Your task to perform on an android device: make emails show in primary in the gmail app Image 0: 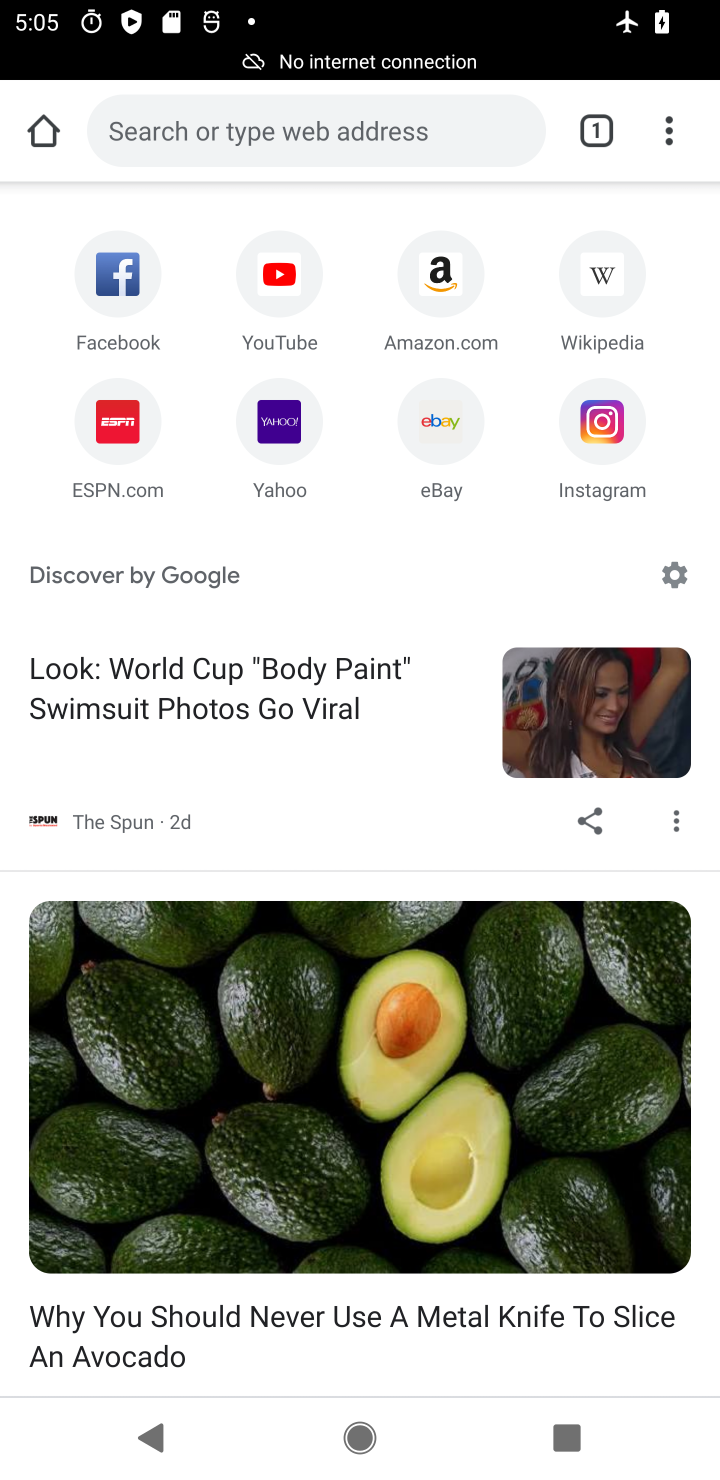
Step 0: press back button
Your task to perform on an android device: make emails show in primary in the gmail app Image 1: 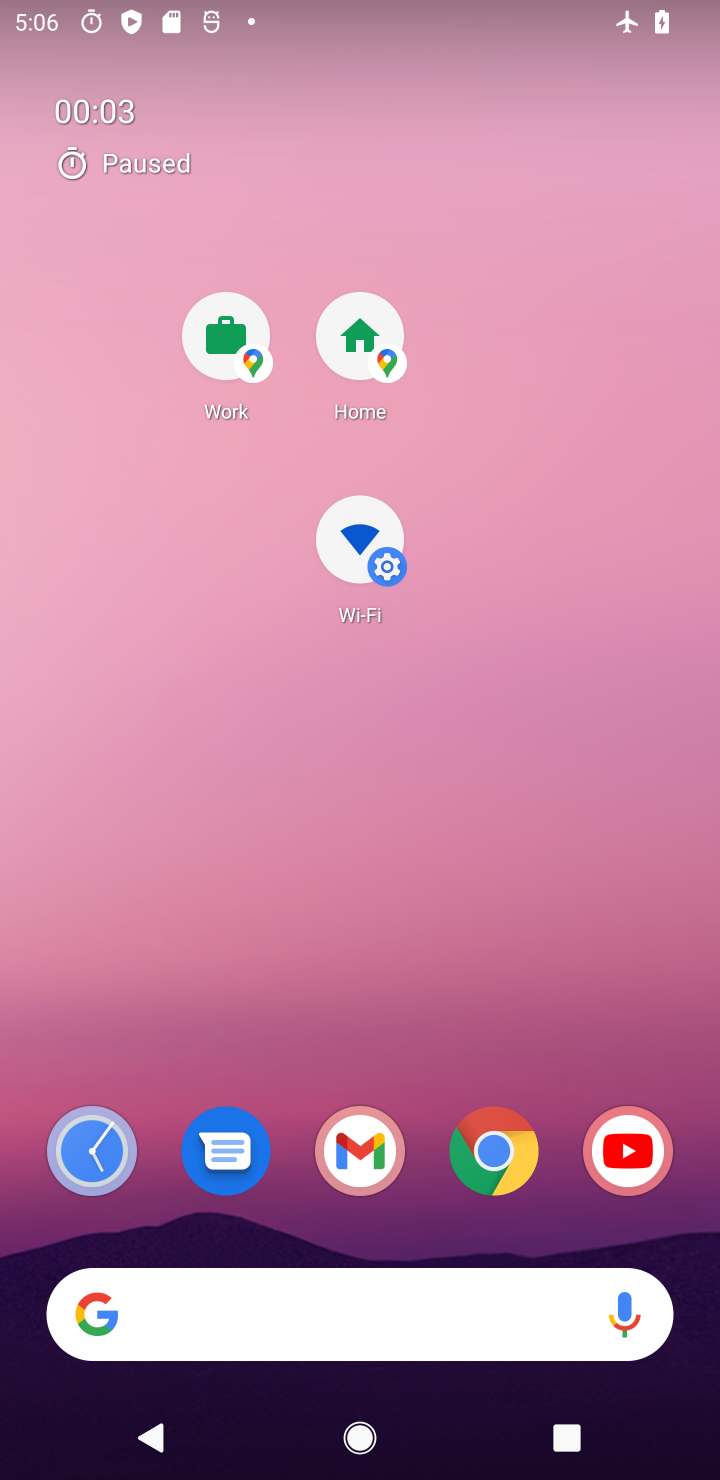
Step 1: press back button
Your task to perform on an android device: make emails show in primary in the gmail app Image 2: 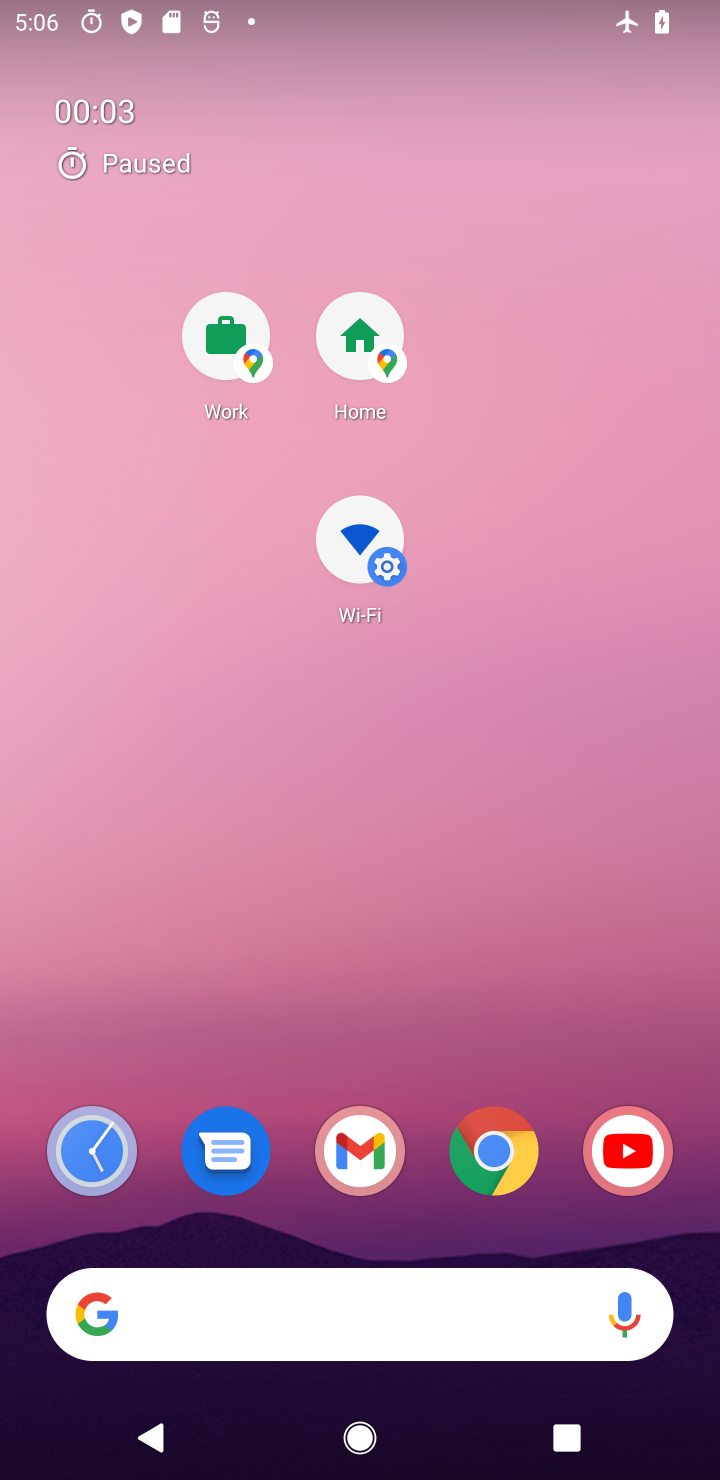
Step 2: press home button
Your task to perform on an android device: make emails show in primary in the gmail app Image 3: 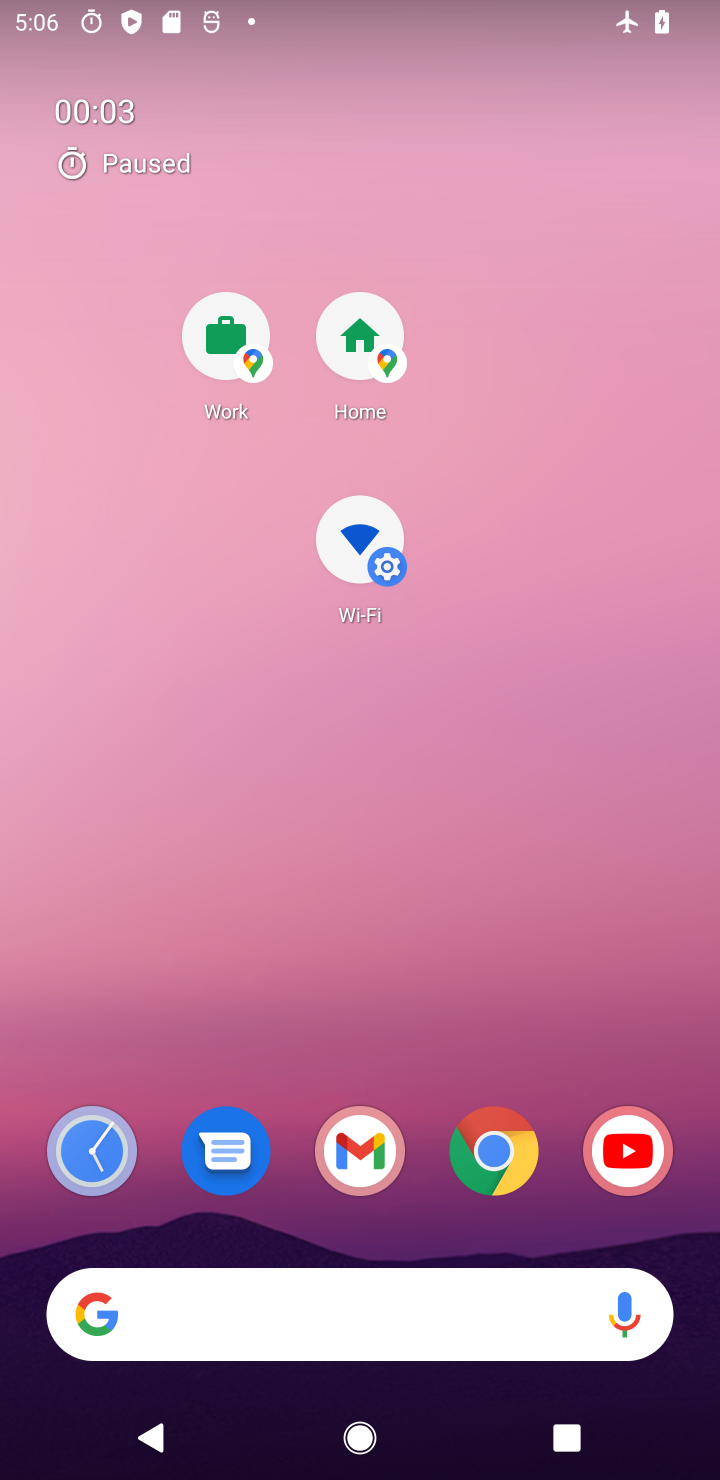
Step 3: press back button
Your task to perform on an android device: make emails show in primary in the gmail app Image 4: 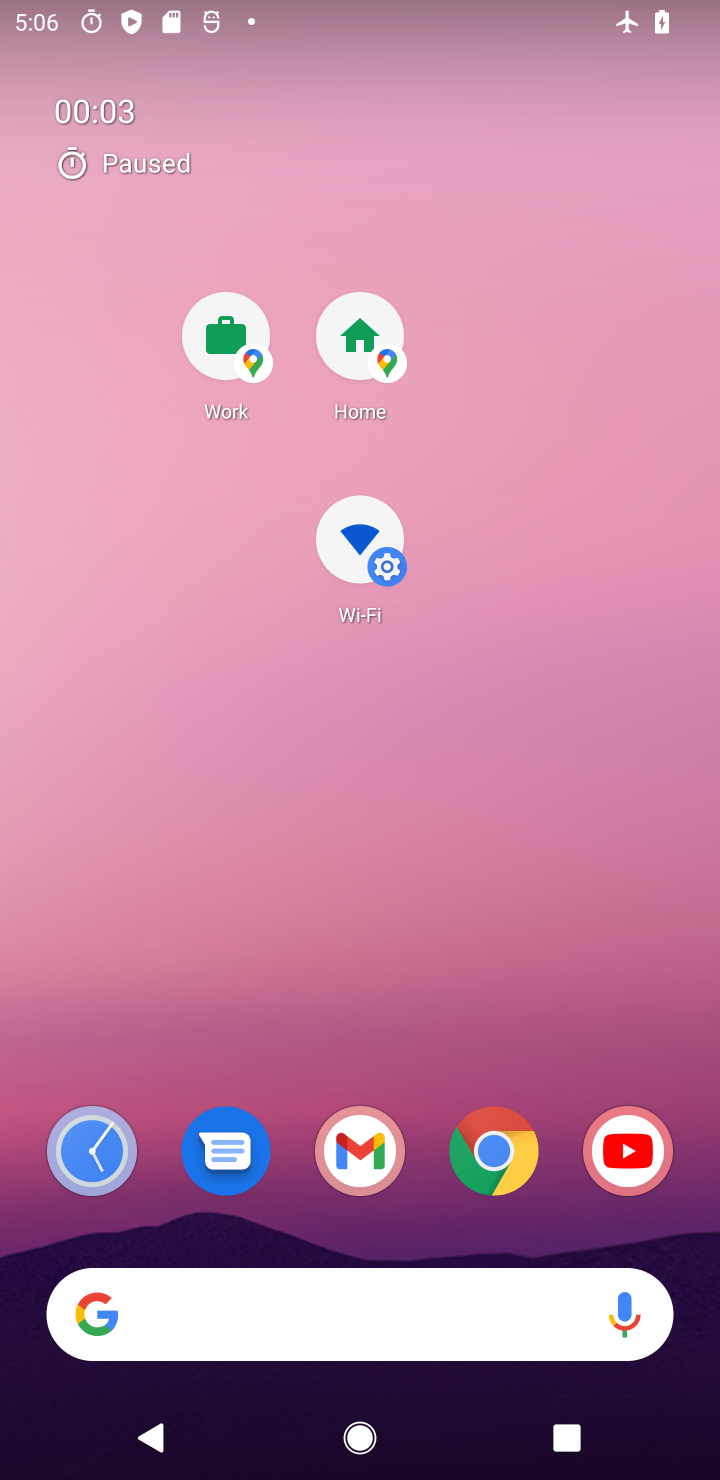
Step 4: drag from (447, 1398) to (283, 584)
Your task to perform on an android device: make emails show in primary in the gmail app Image 5: 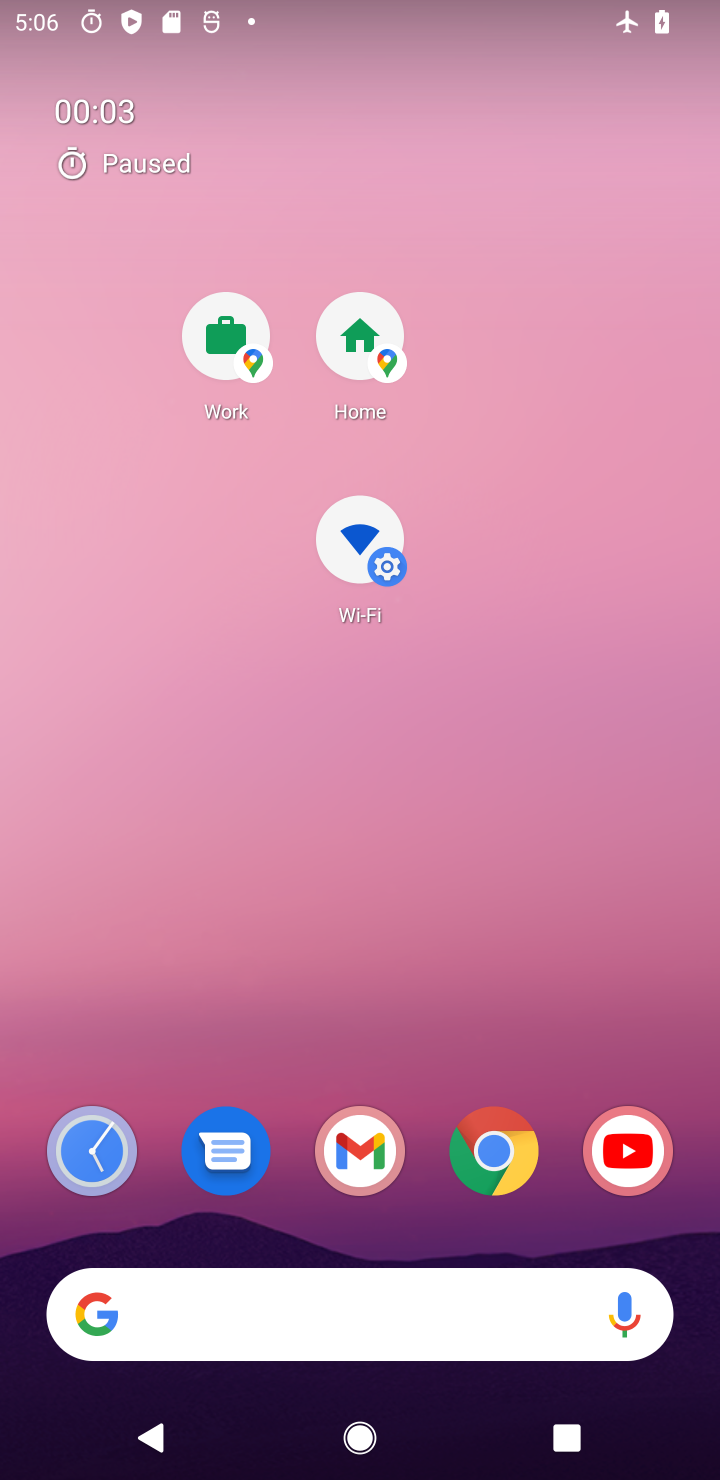
Step 5: drag from (499, 1086) to (412, 224)
Your task to perform on an android device: make emails show in primary in the gmail app Image 6: 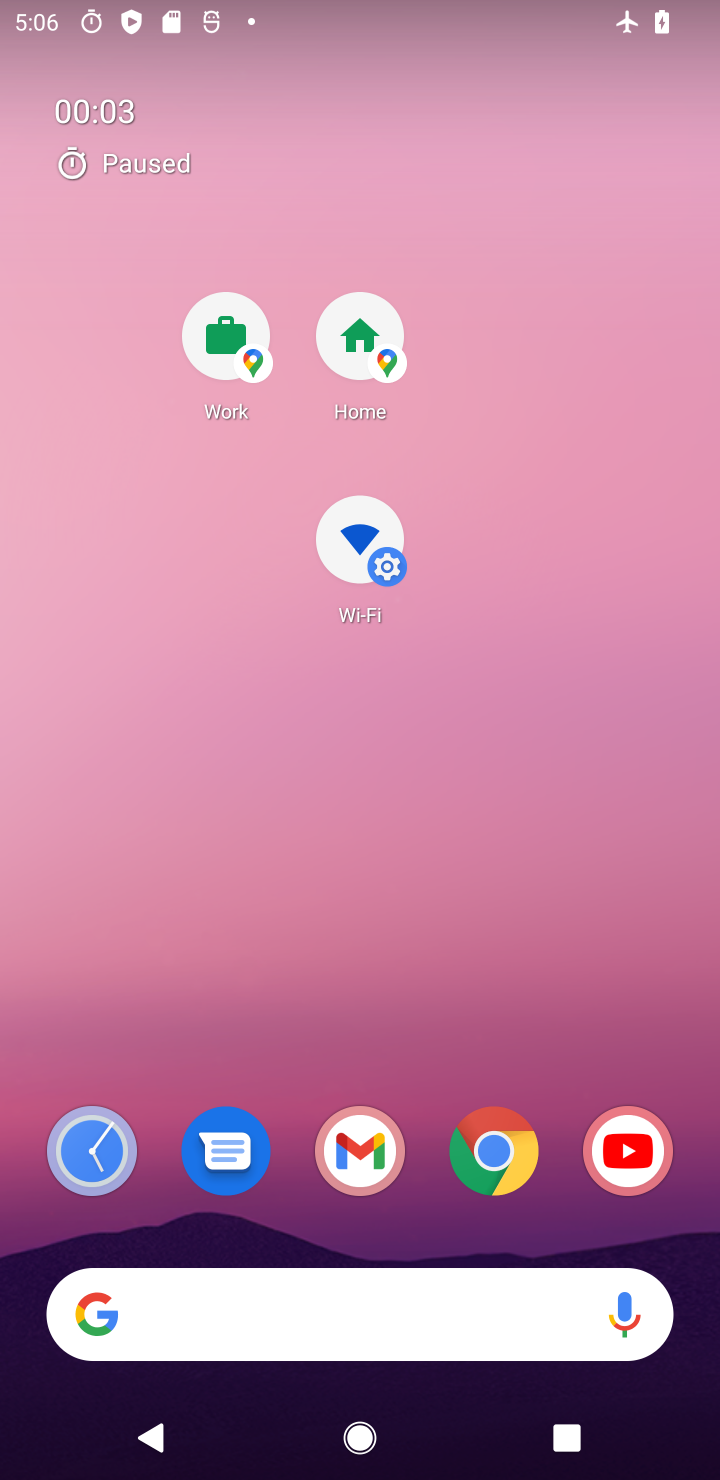
Step 6: drag from (450, 668) to (426, 472)
Your task to perform on an android device: make emails show in primary in the gmail app Image 7: 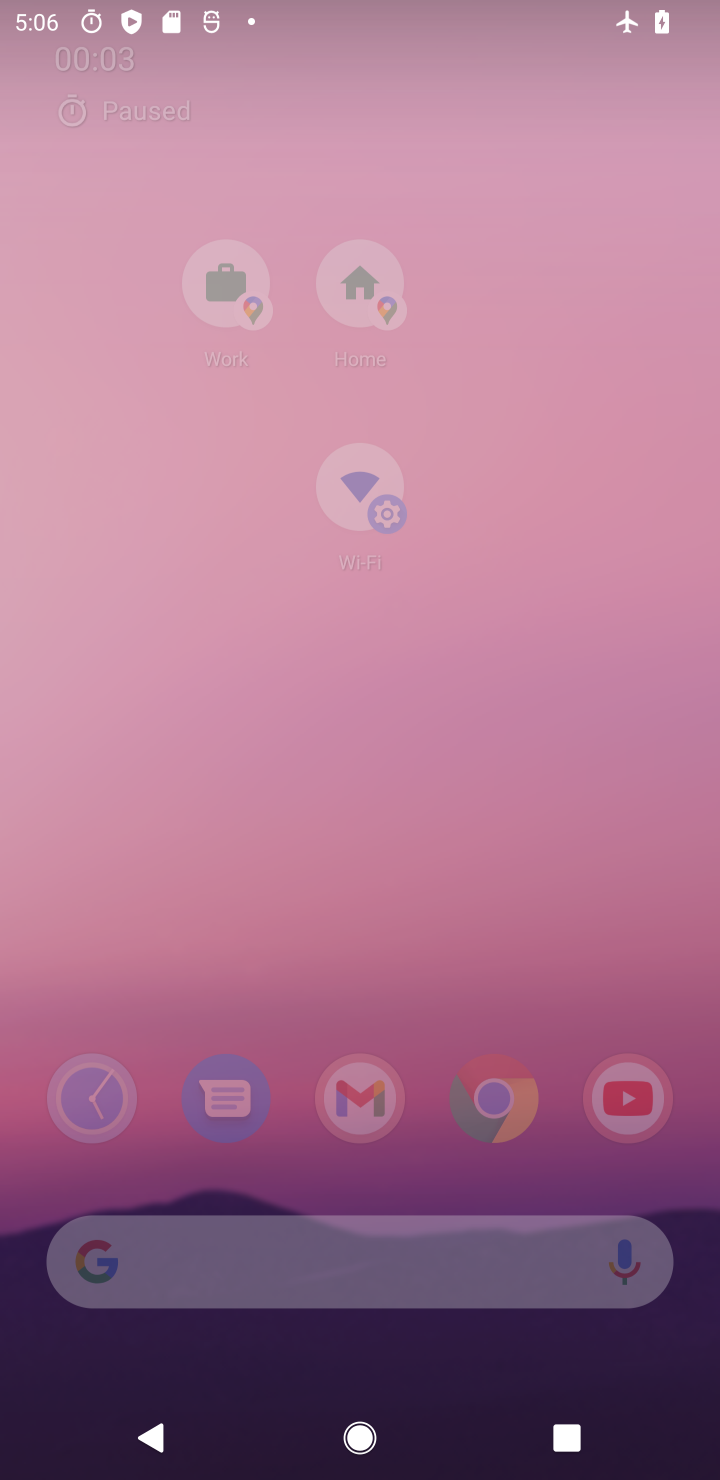
Step 7: click (341, 367)
Your task to perform on an android device: make emails show in primary in the gmail app Image 8: 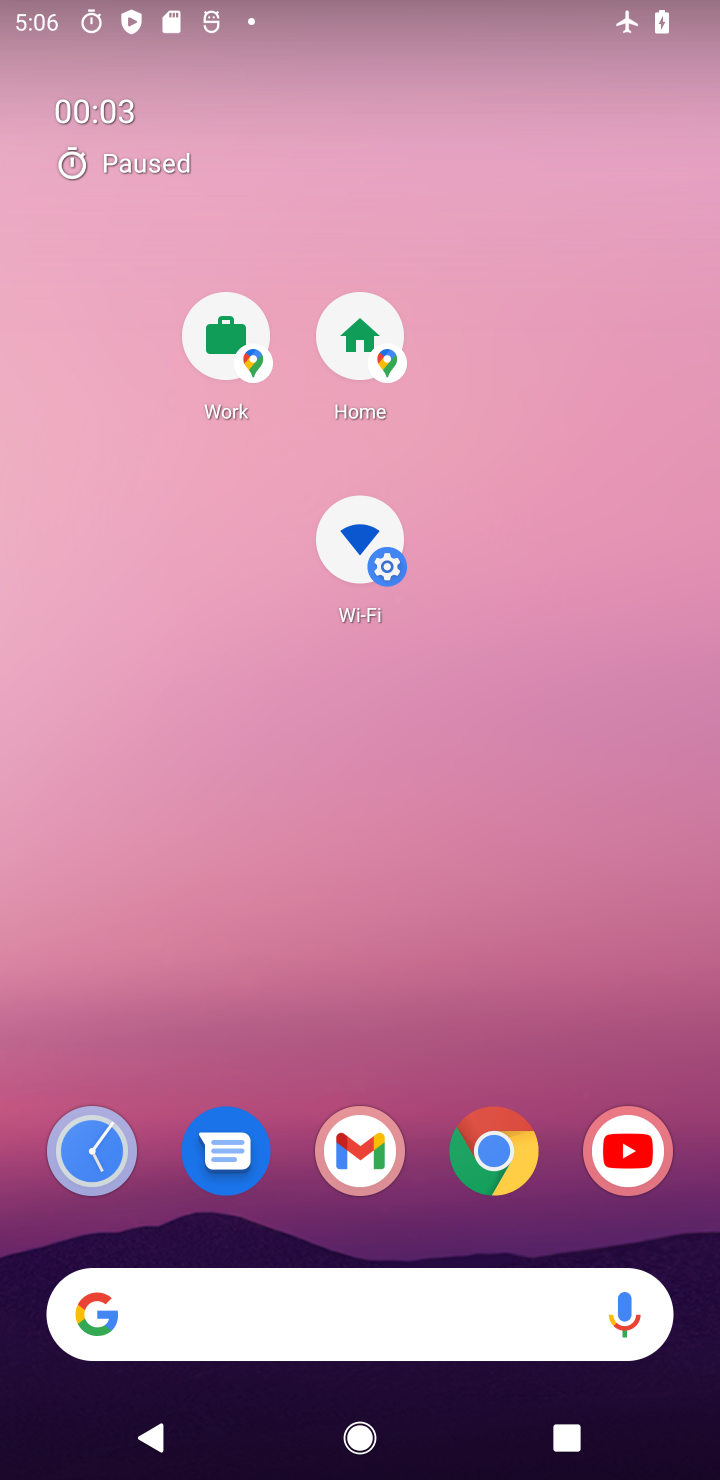
Step 8: drag from (446, 280) to (419, 14)
Your task to perform on an android device: make emails show in primary in the gmail app Image 9: 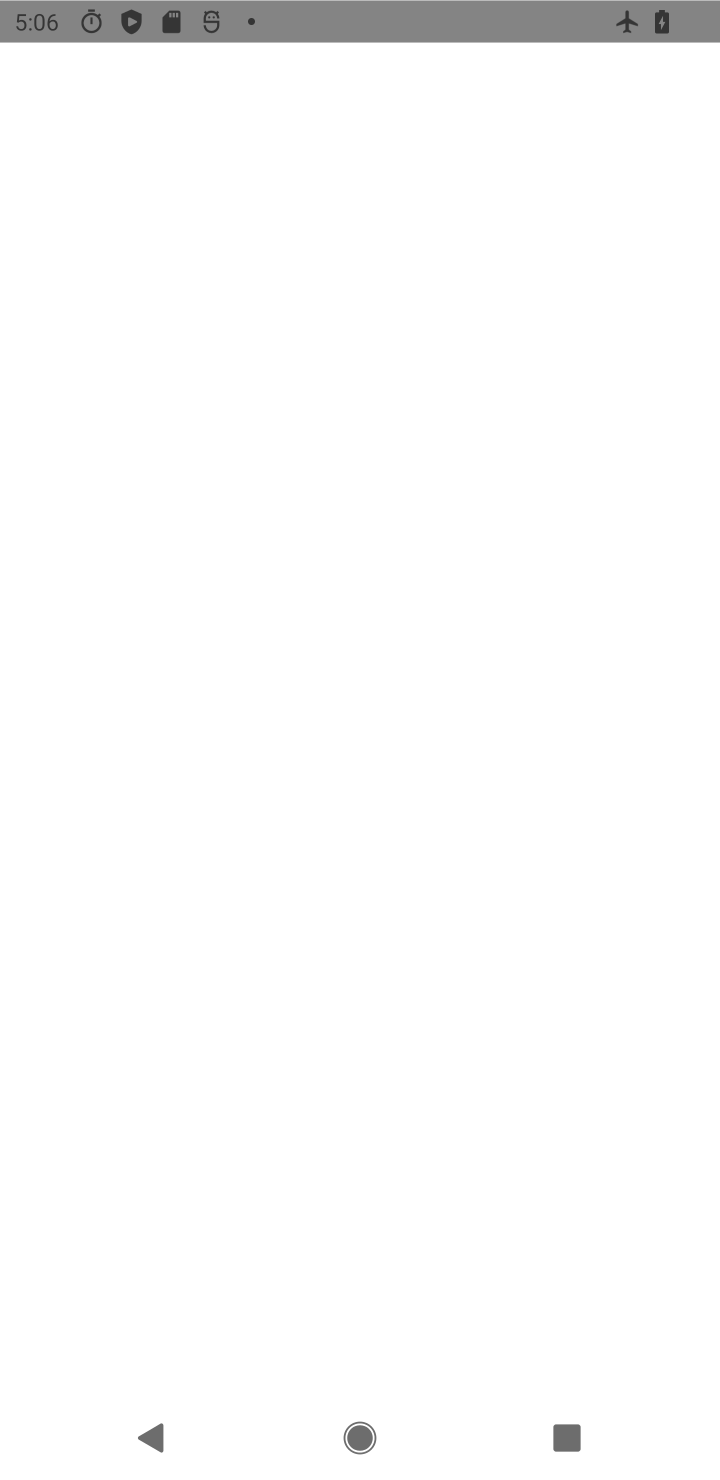
Step 9: drag from (474, 991) to (461, 224)
Your task to perform on an android device: make emails show in primary in the gmail app Image 10: 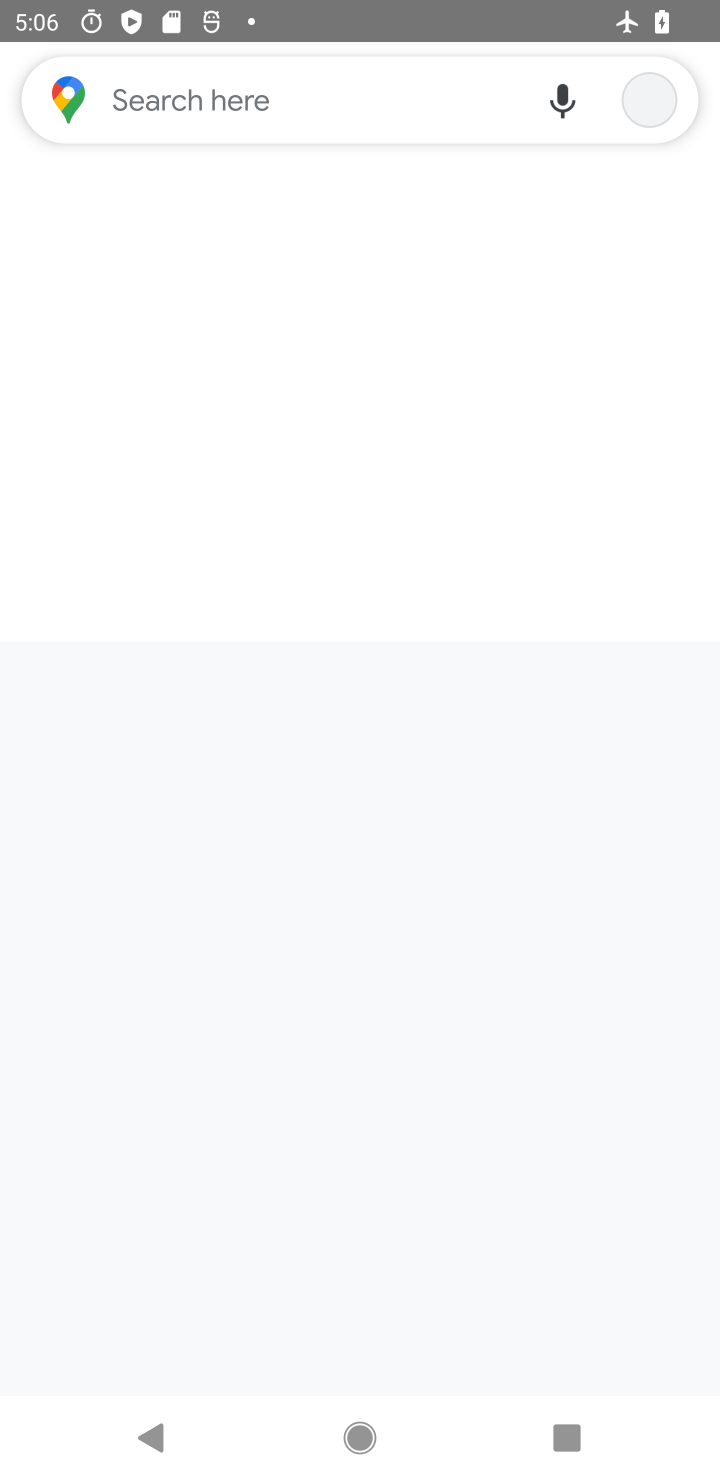
Step 10: press back button
Your task to perform on an android device: make emails show in primary in the gmail app Image 11: 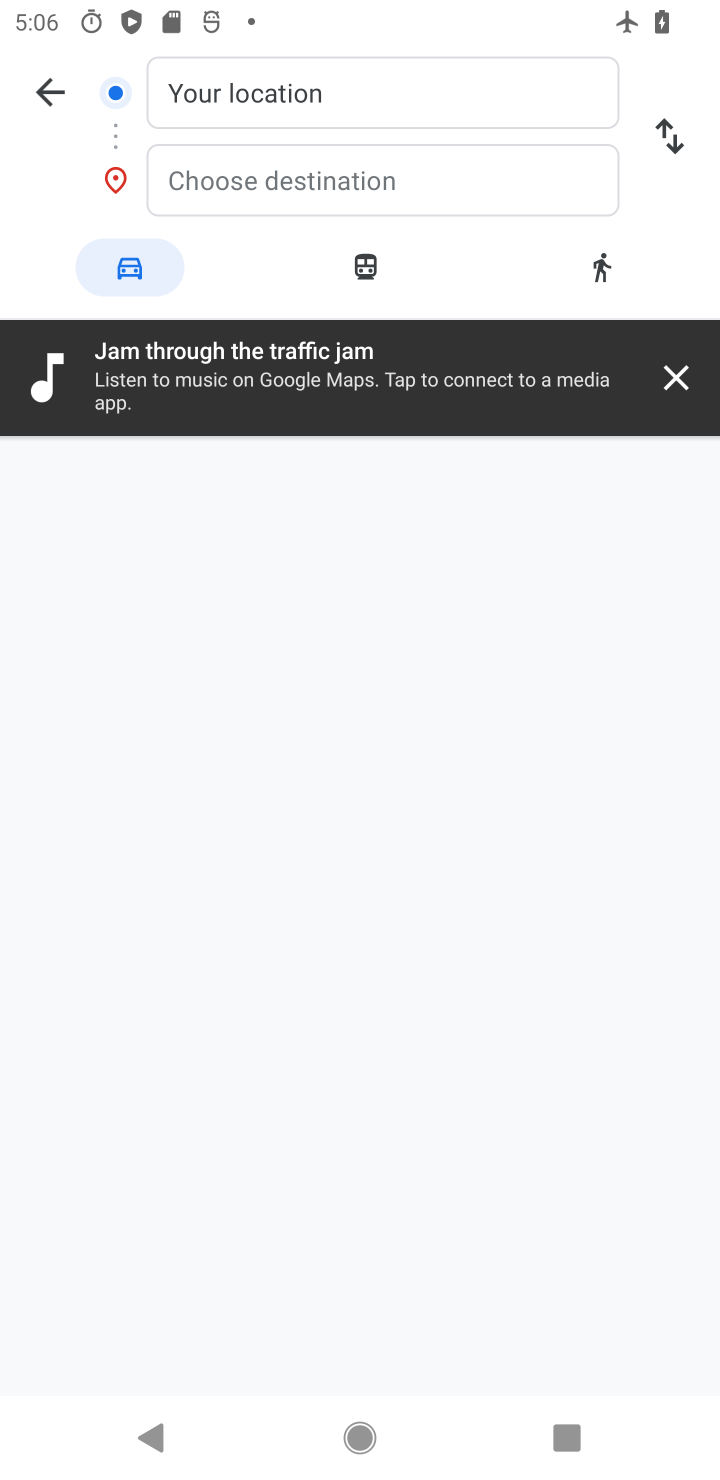
Step 11: click (44, 92)
Your task to perform on an android device: make emails show in primary in the gmail app Image 12: 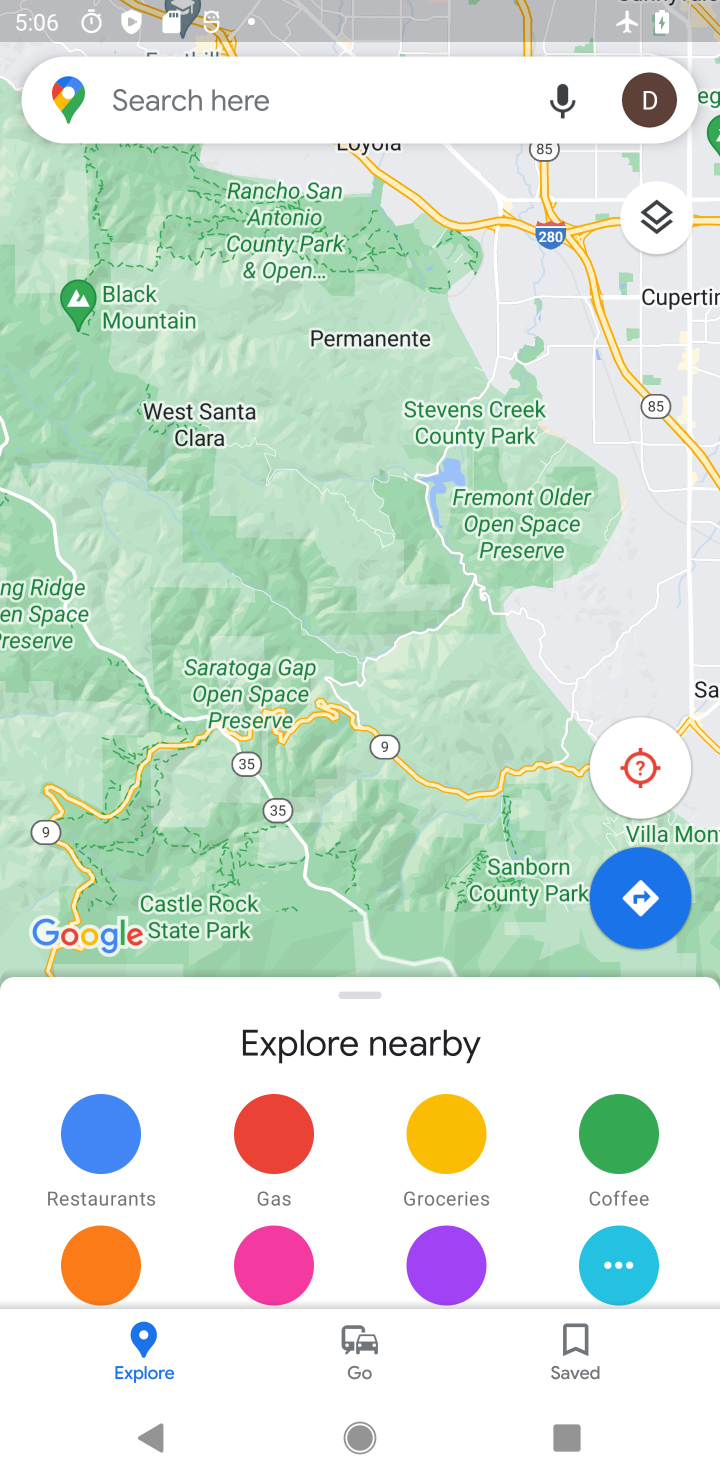
Step 12: press home button
Your task to perform on an android device: make emails show in primary in the gmail app Image 13: 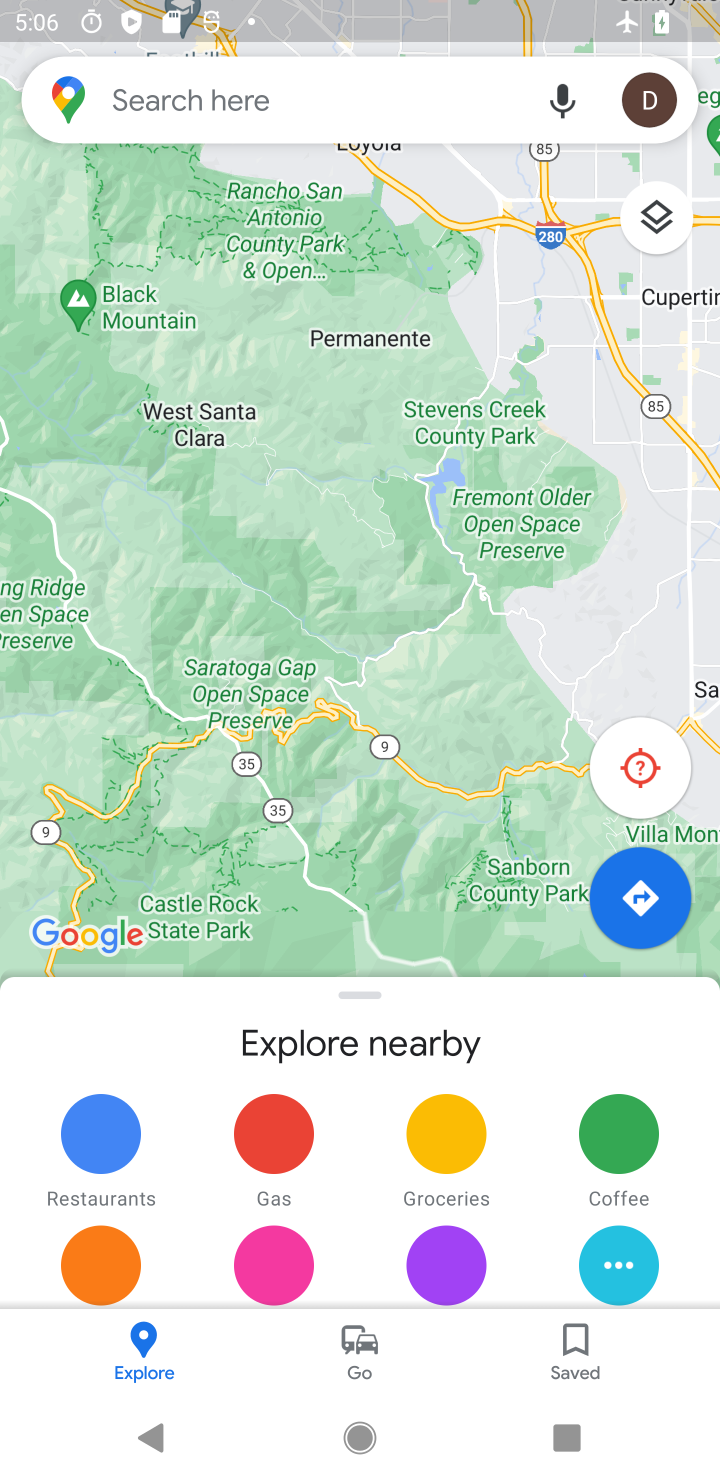
Step 13: press back button
Your task to perform on an android device: make emails show in primary in the gmail app Image 14: 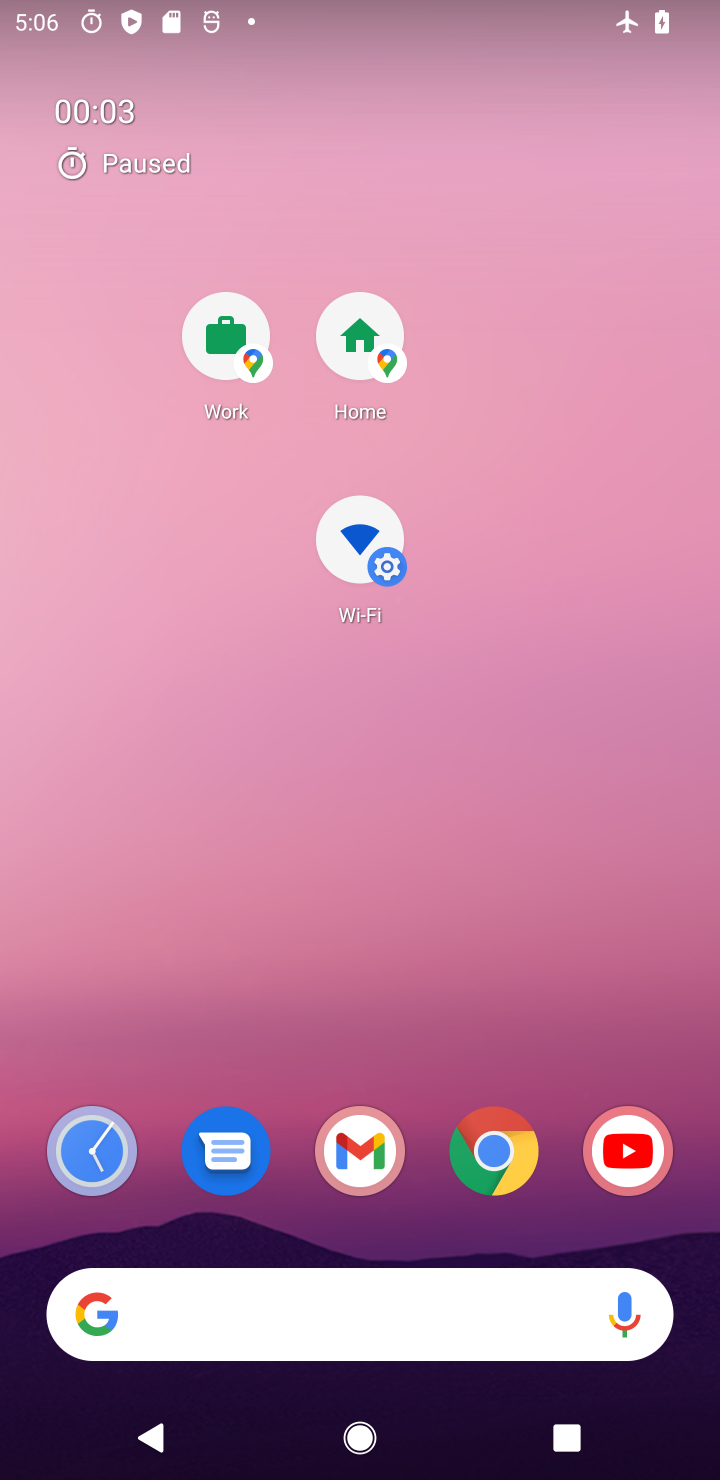
Step 14: drag from (389, 973) to (334, 253)
Your task to perform on an android device: make emails show in primary in the gmail app Image 15: 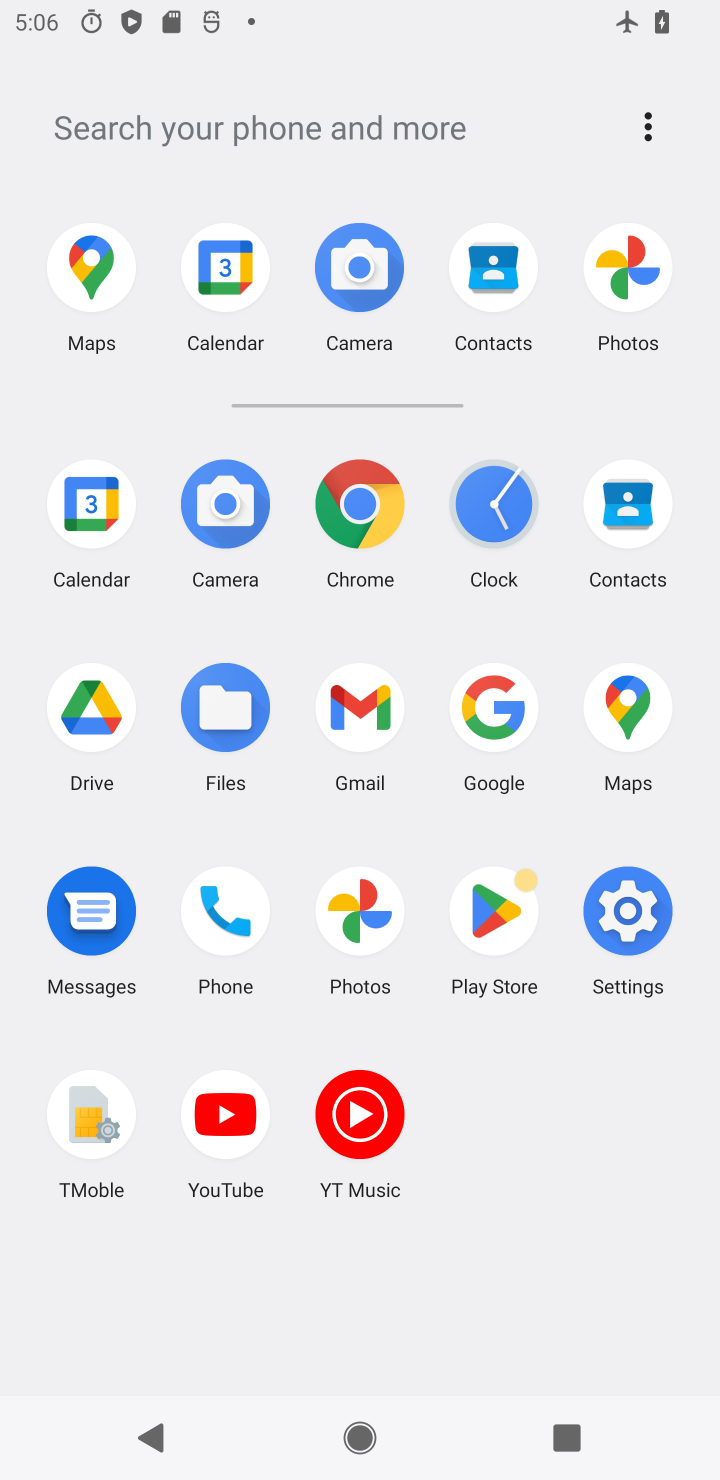
Step 15: click (373, 702)
Your task to perform on an android device: make emails show in primary in the gmail app Image 16: 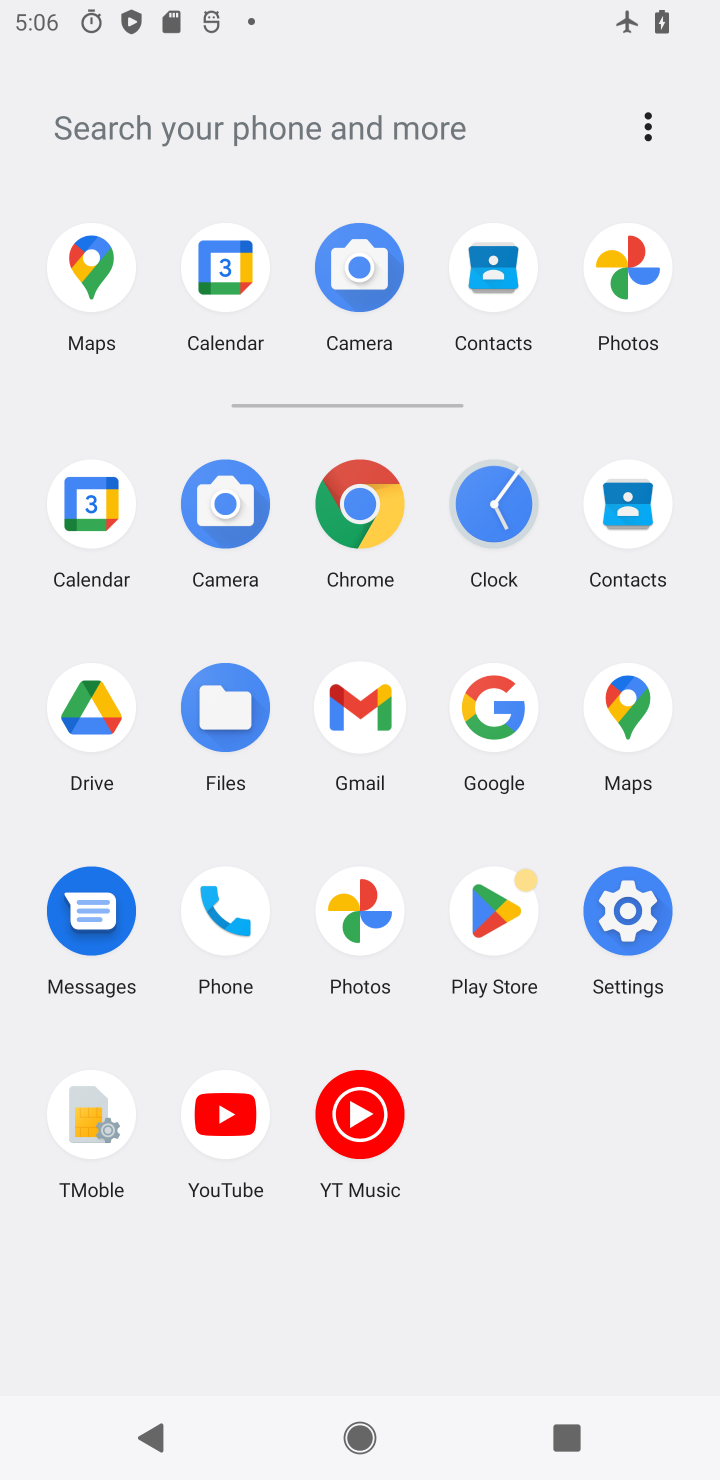
Step 16: click (375, 703)
Your task to perform on an android device: make emails show in primary in the gmail app Image 17: 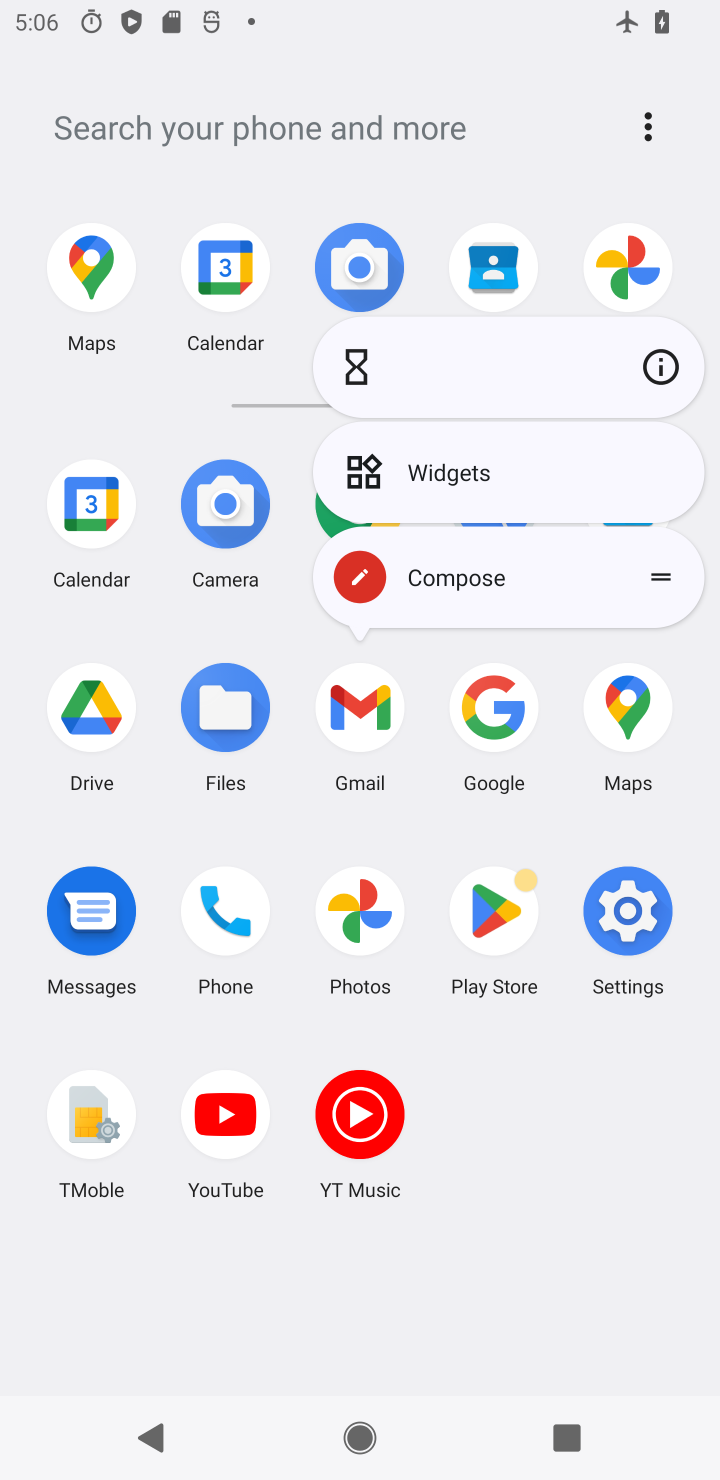
Step 17: click (444, 554)
Your task to perform on an android device: make emails show in primary in the gmail app Image 18: 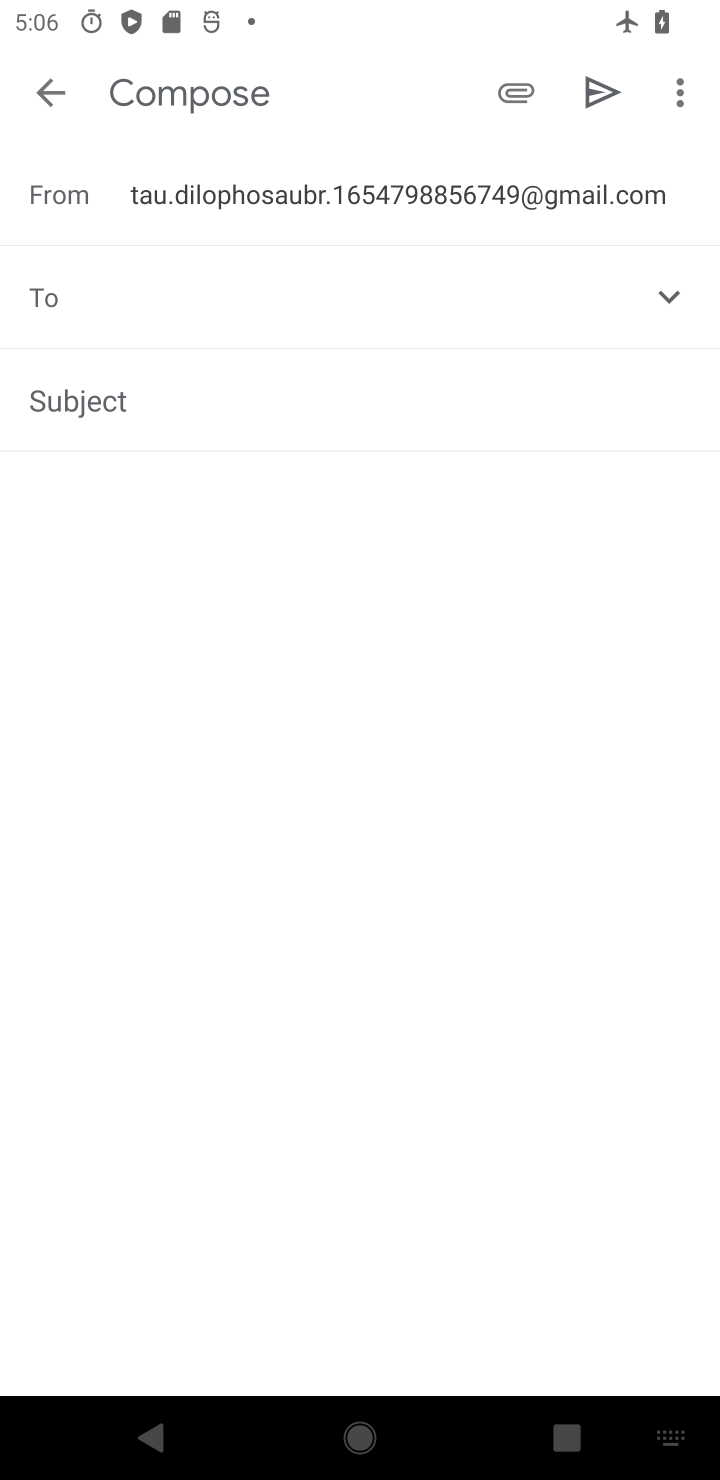
Step 18: click (38, 81)
Your task to perform on an android device: make emails show in primary in the gmail app Image 19: 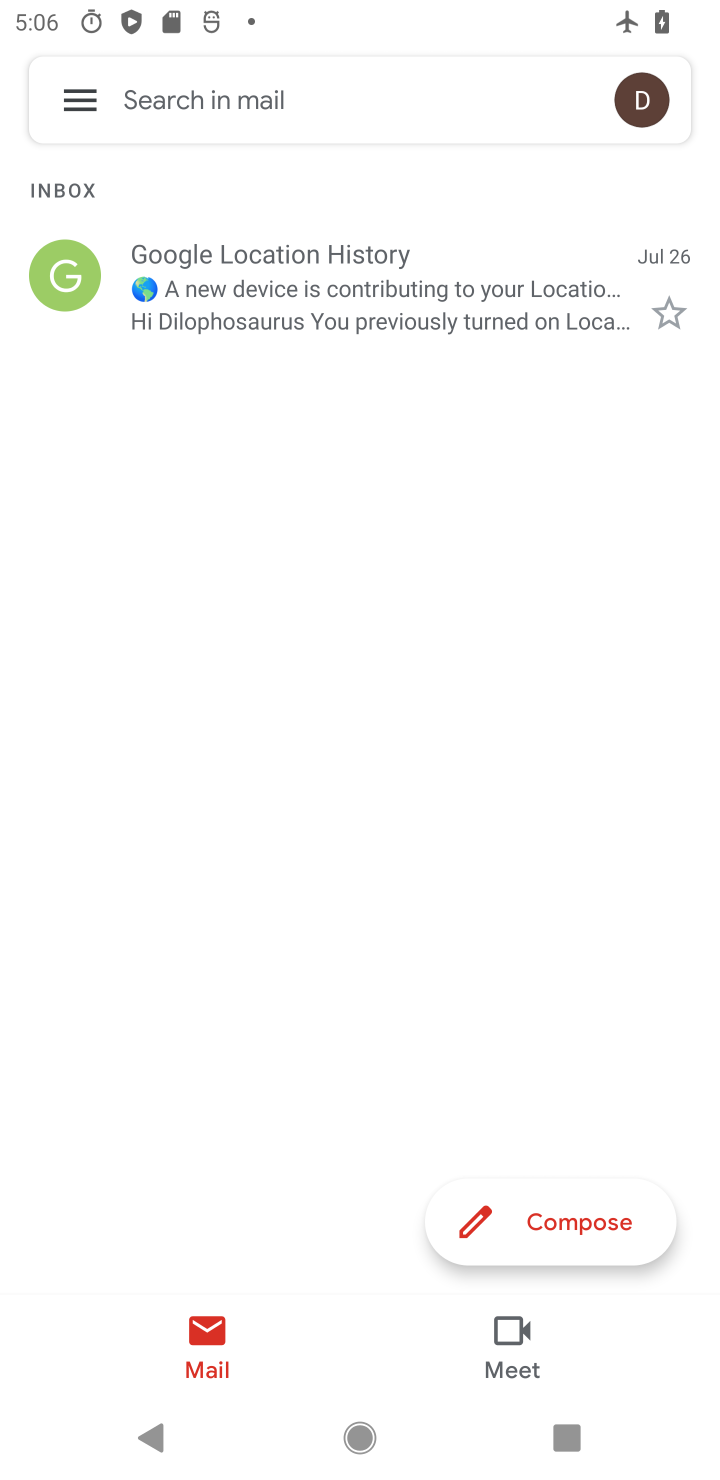
Step 19: click (69, 94)
Your task to perform on an android device: make emails show in primary in the gmail app Image 20: 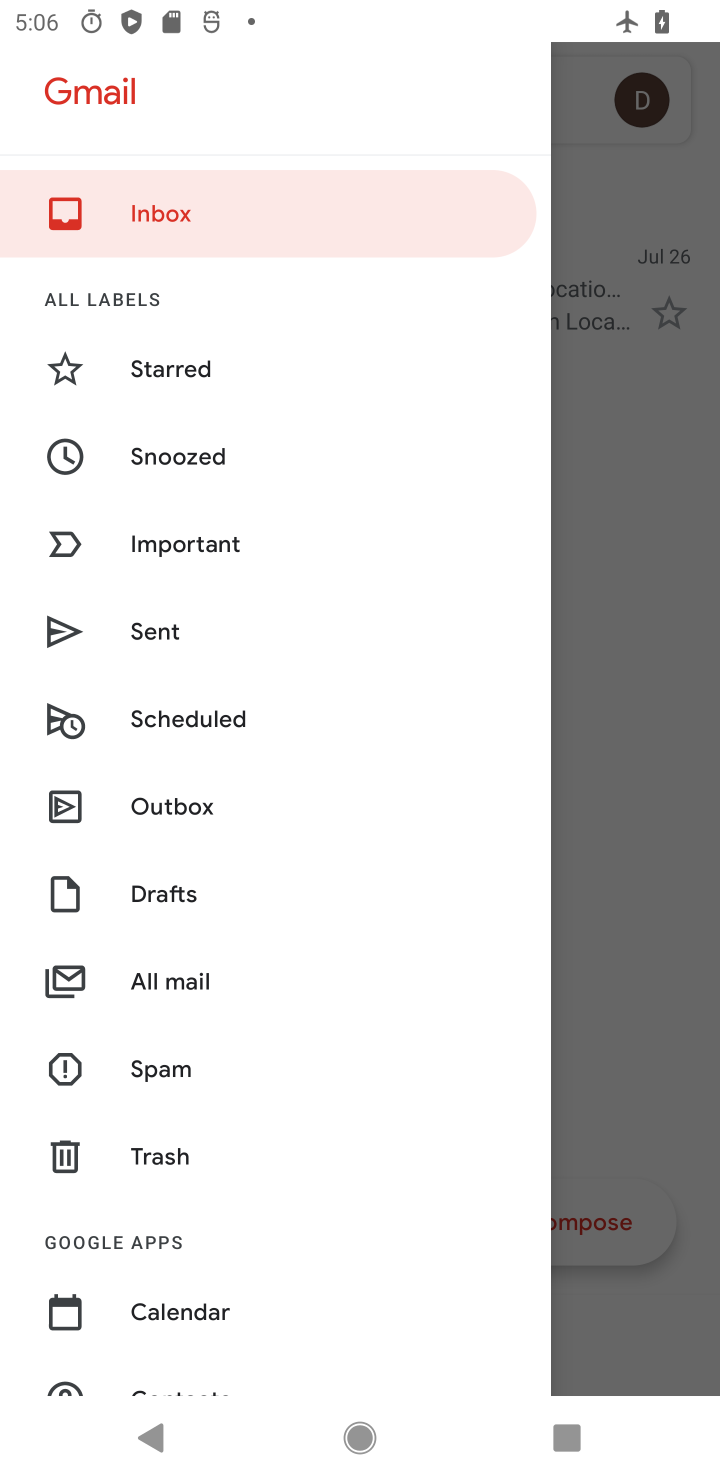
Step 20: drag from (240, 1127) to (155, 539)
Your task to perform on an android device: make emails show in primary in the gmail app Image 21: 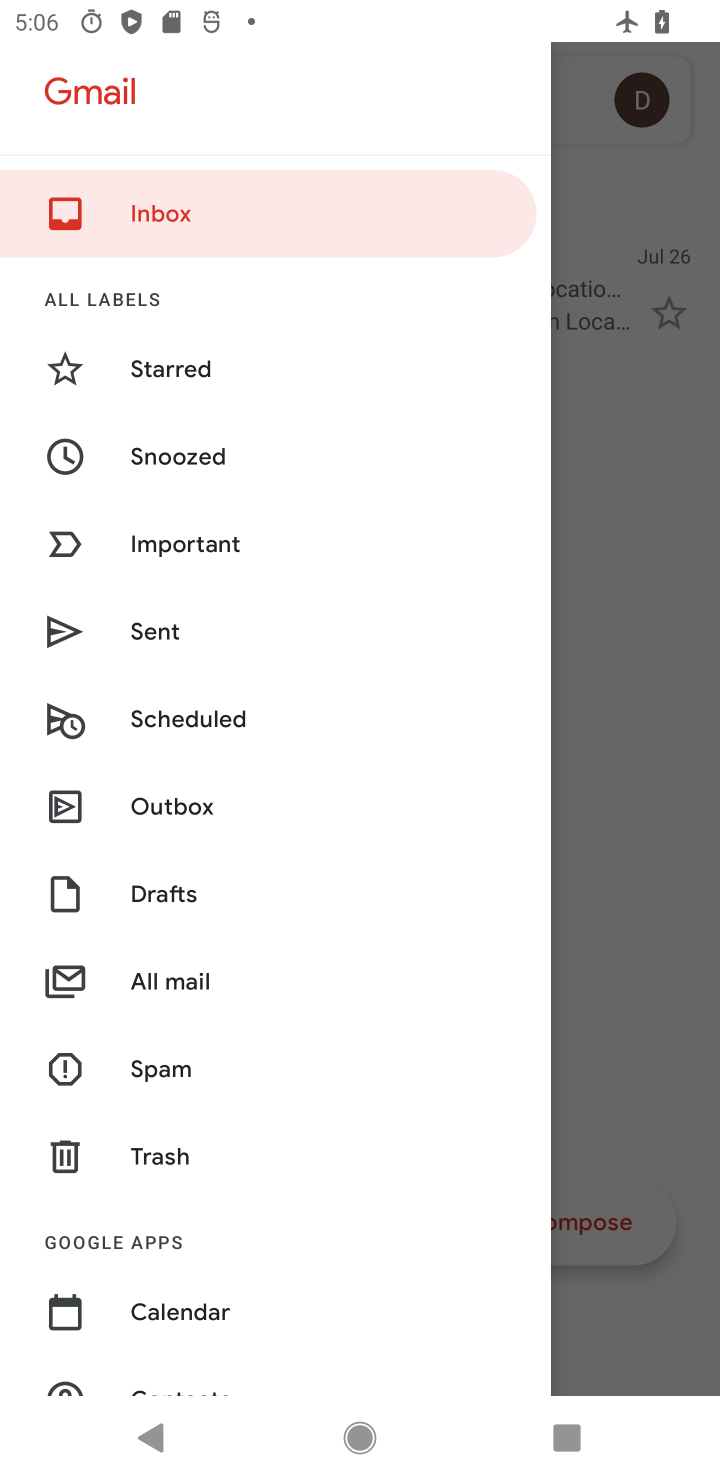
Step 21: drag from (238, 952) to (360, 475)
Your task to perform on an android device: make emails show in primary in the gmail app Image 22: 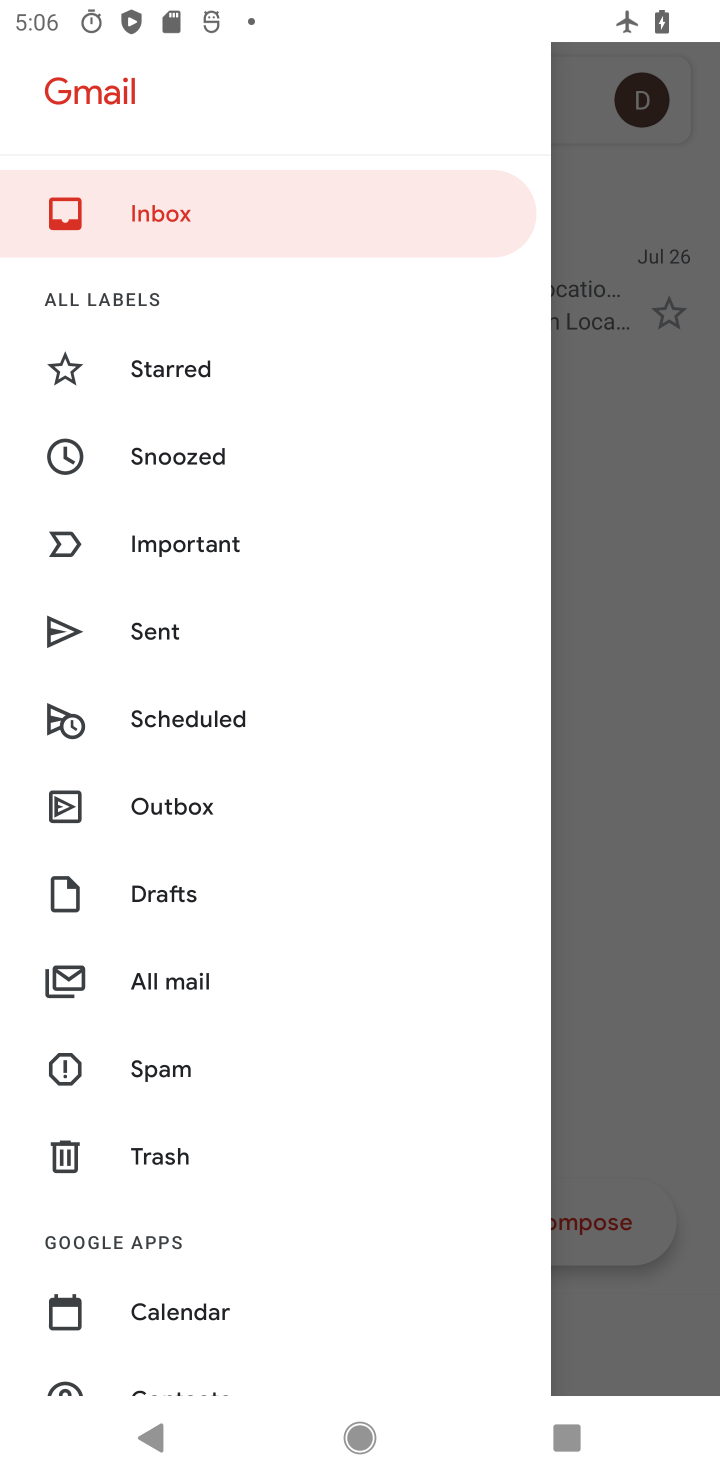
Step 22: drag from (238, 1150) to (178, 338)
Your task to perform on an android device: make emails show in primary in the gmail app Image 23: 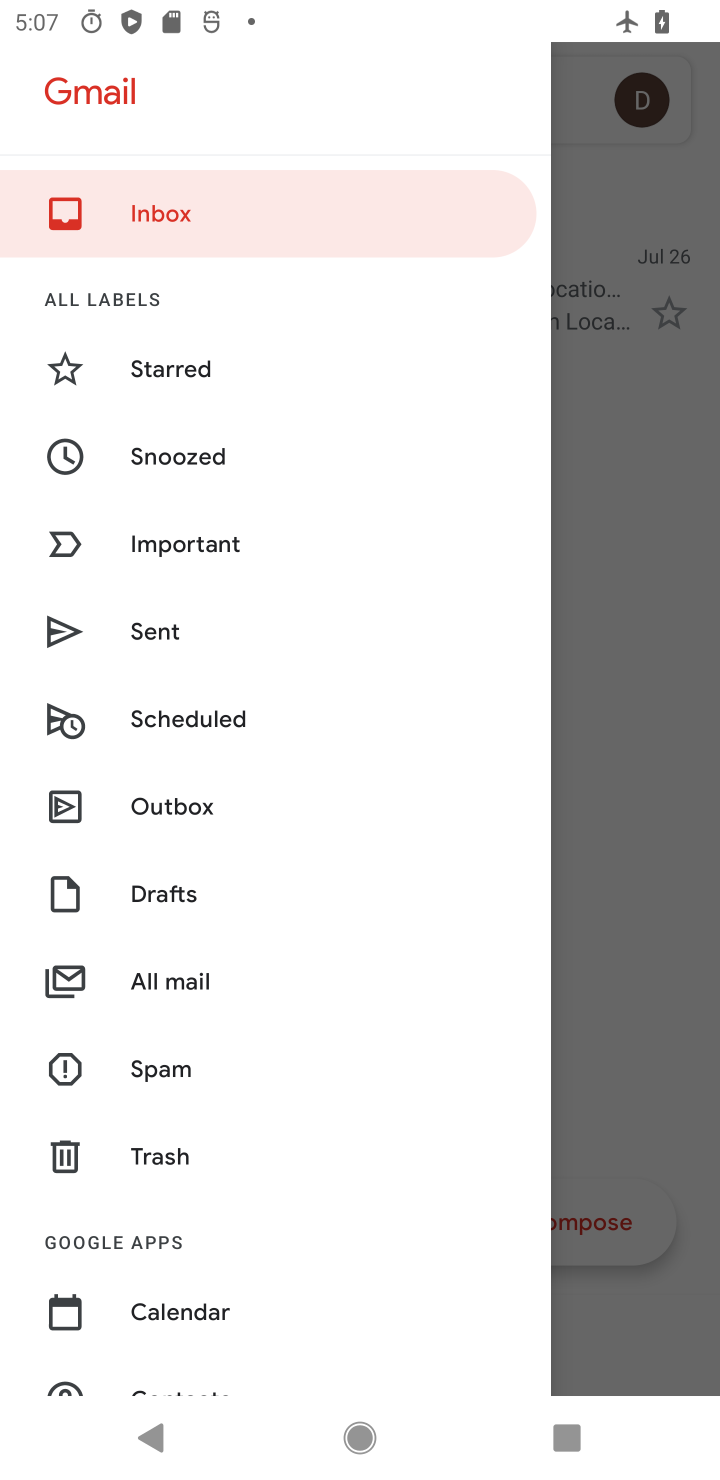
Step 23: drag from (187, 783) to (98, 325)
Your task to perform on an android device: make emails show in primary in the gmail app Image 24: 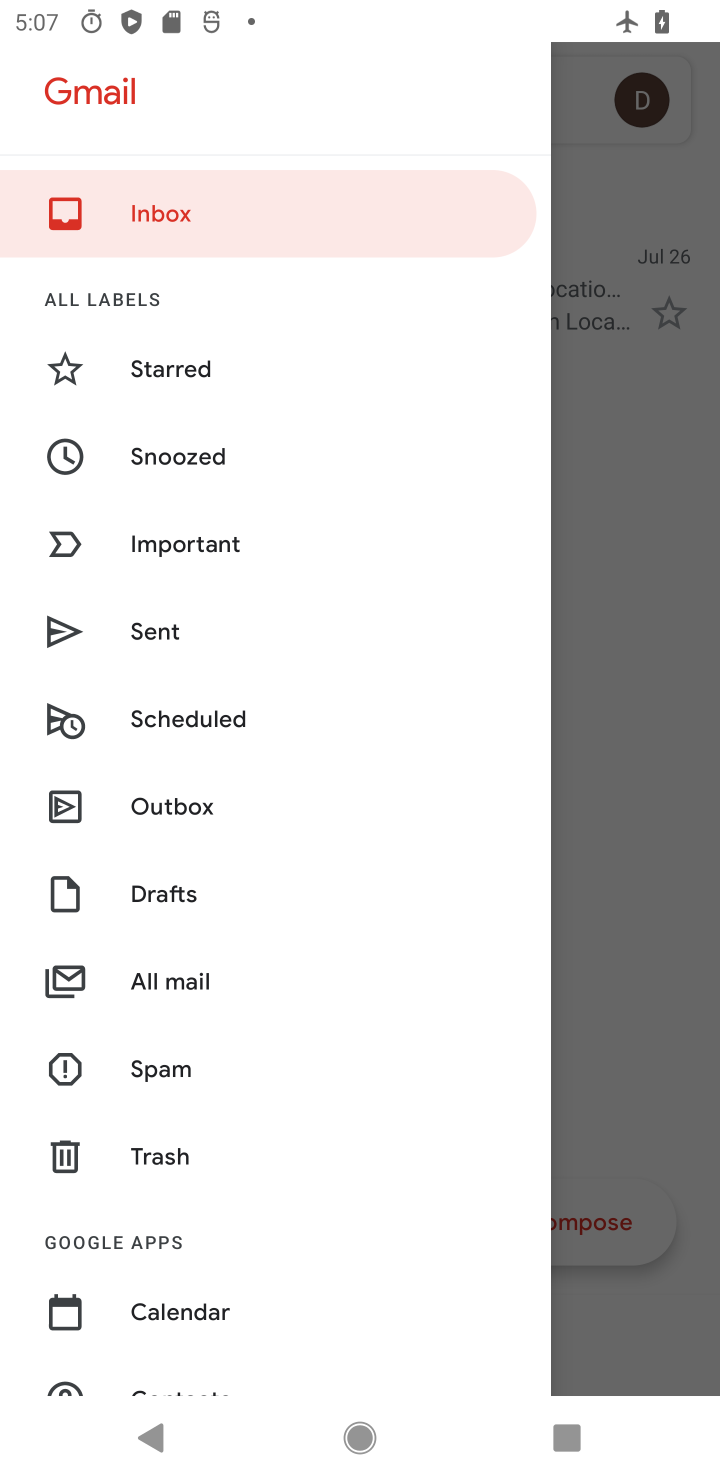
Step 24: drag from (168, 1123) to (137, 548)
Your task to perform on an android device: make emails show in primary in the gmail app Image 25: 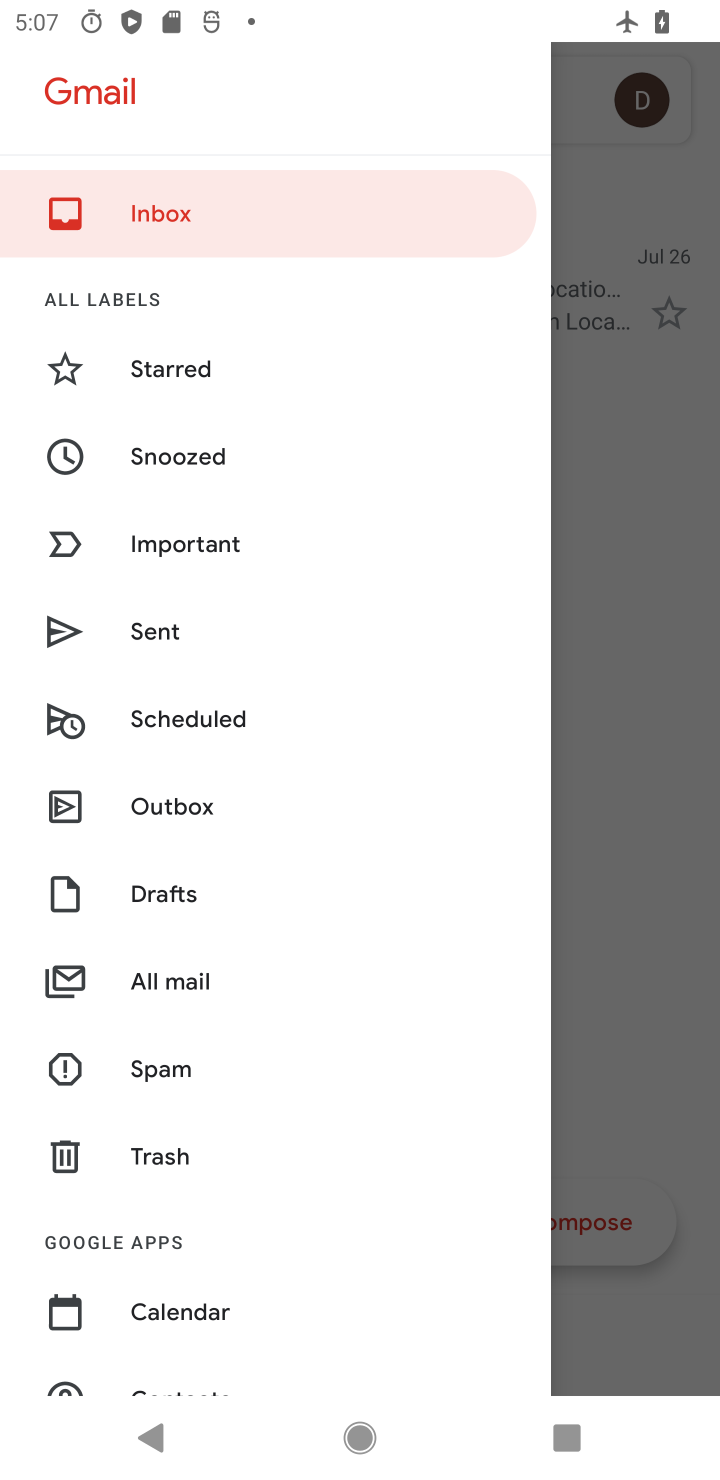
Step 25: drag from (179, 1171) to (107, 473)
Your task to perform on an android device: make emails show in primary in the gmail app Image 26: 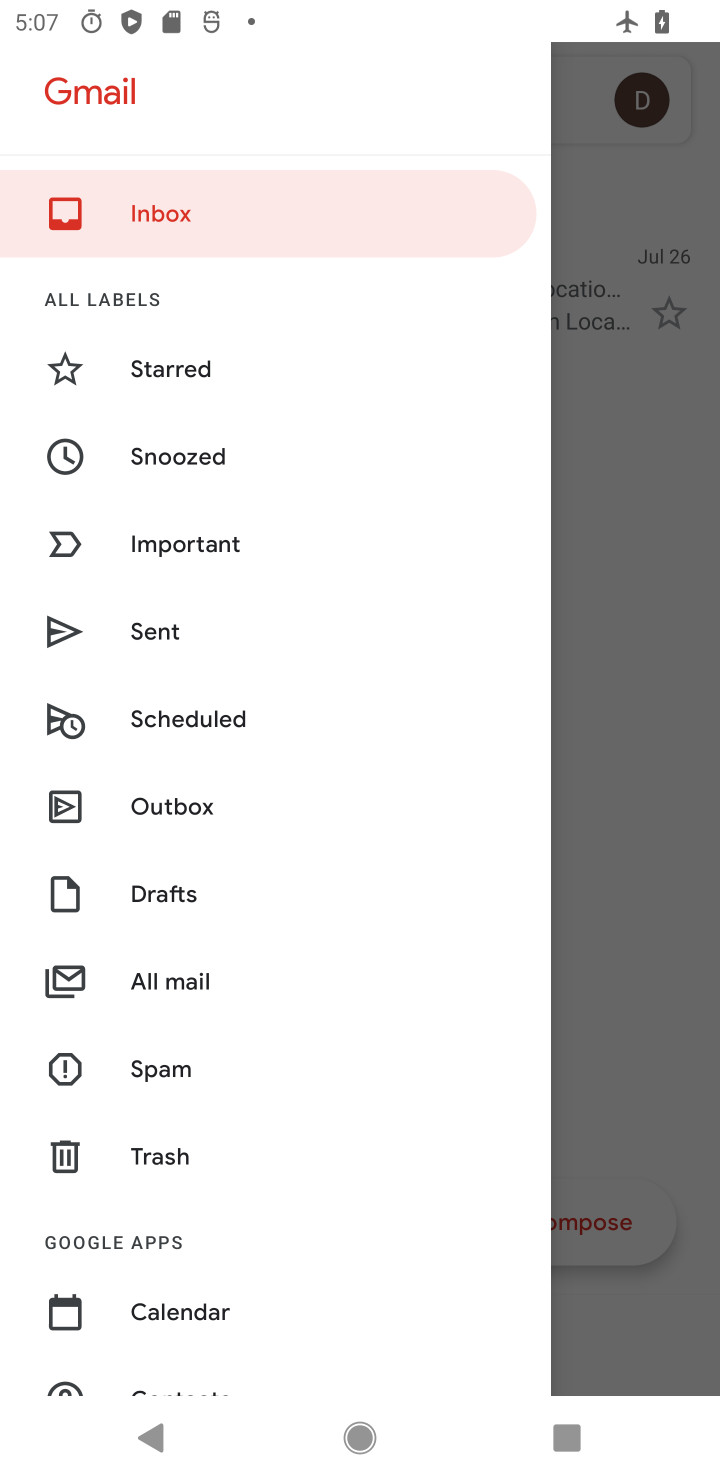
Step 26: drag from (250, 564) to (252, 428)
Your task to perform on an android device: make emails show in primary in the gmail app Image 27: 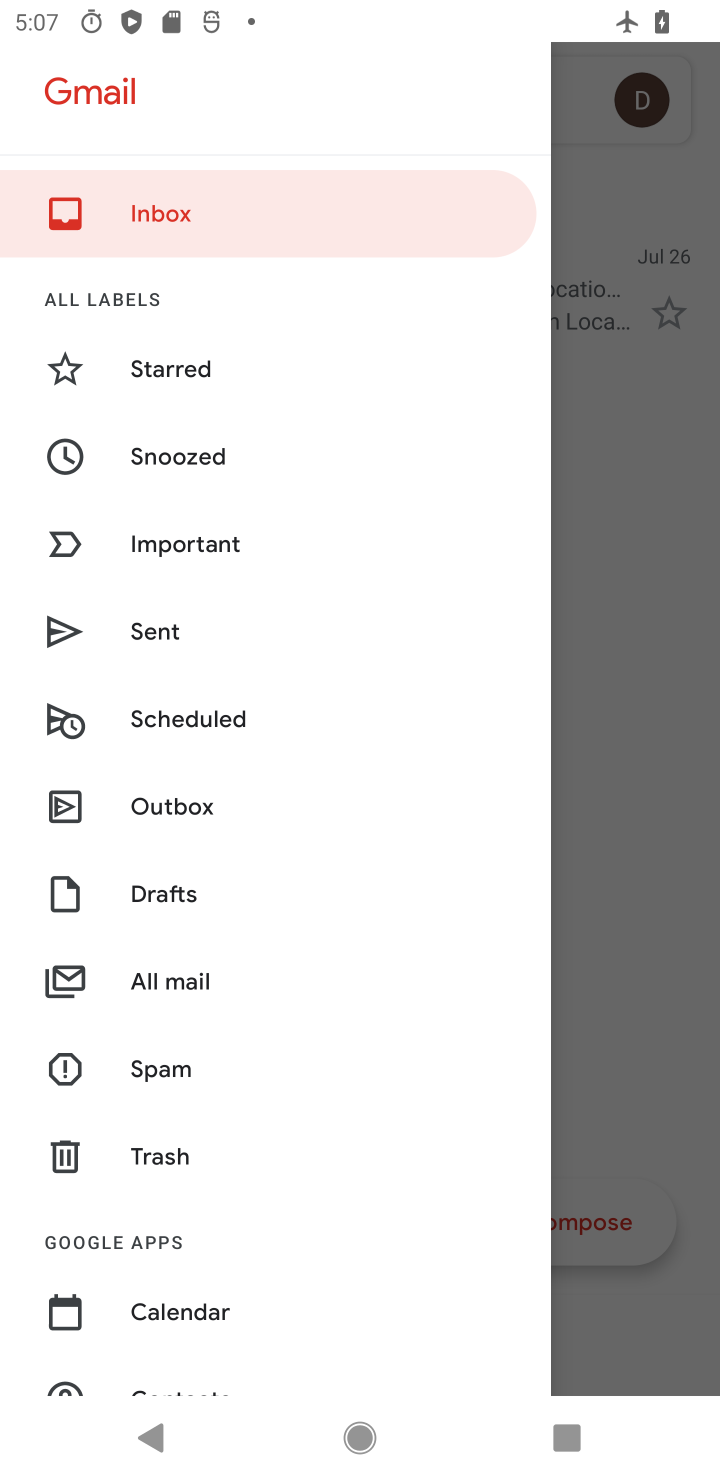
Step 27: drag from (191, 1280) to (148, 620)
Your task to perform on an android device: make emails show in primary in the gmail app Image 28: 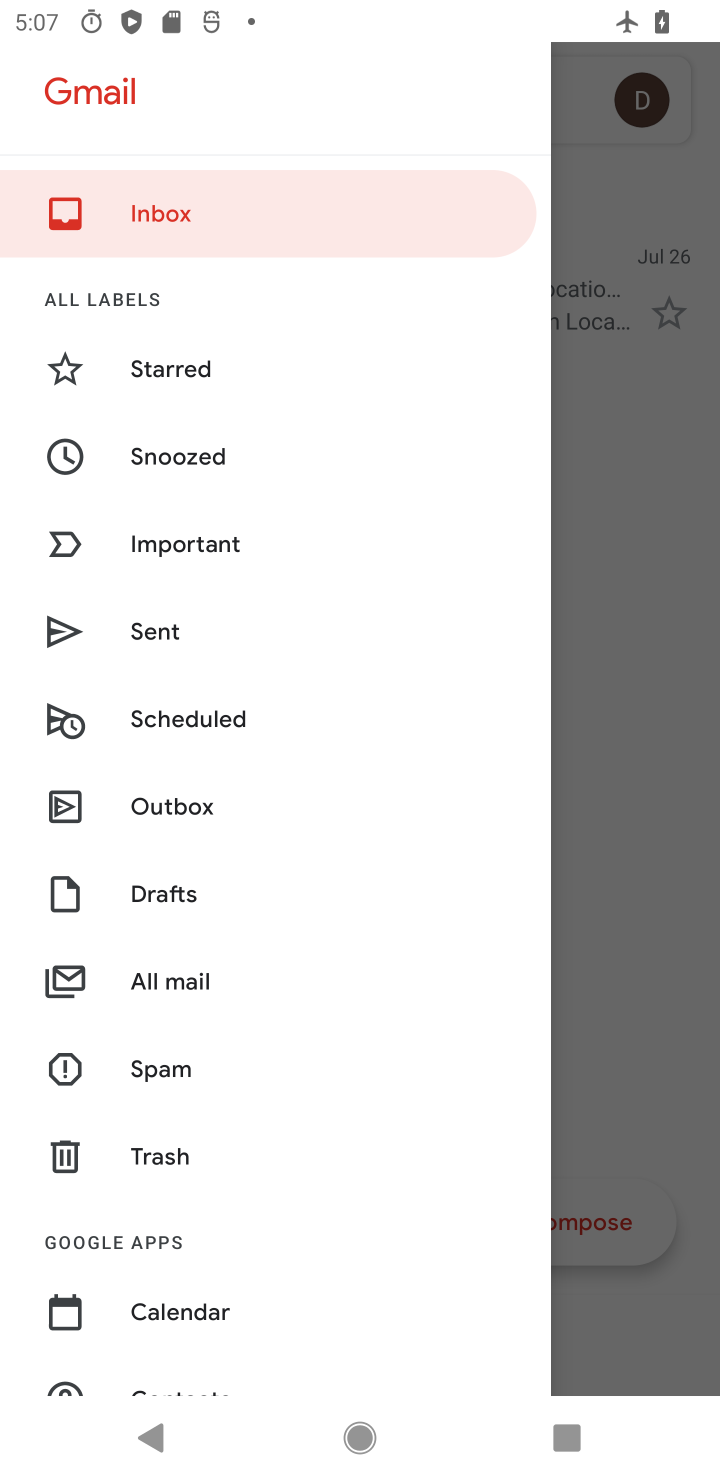
Step 28: drag from (186, 1108) to (137, 433)
Your task to perform on an android device: make emails show in primary in the gmail app Image 29: 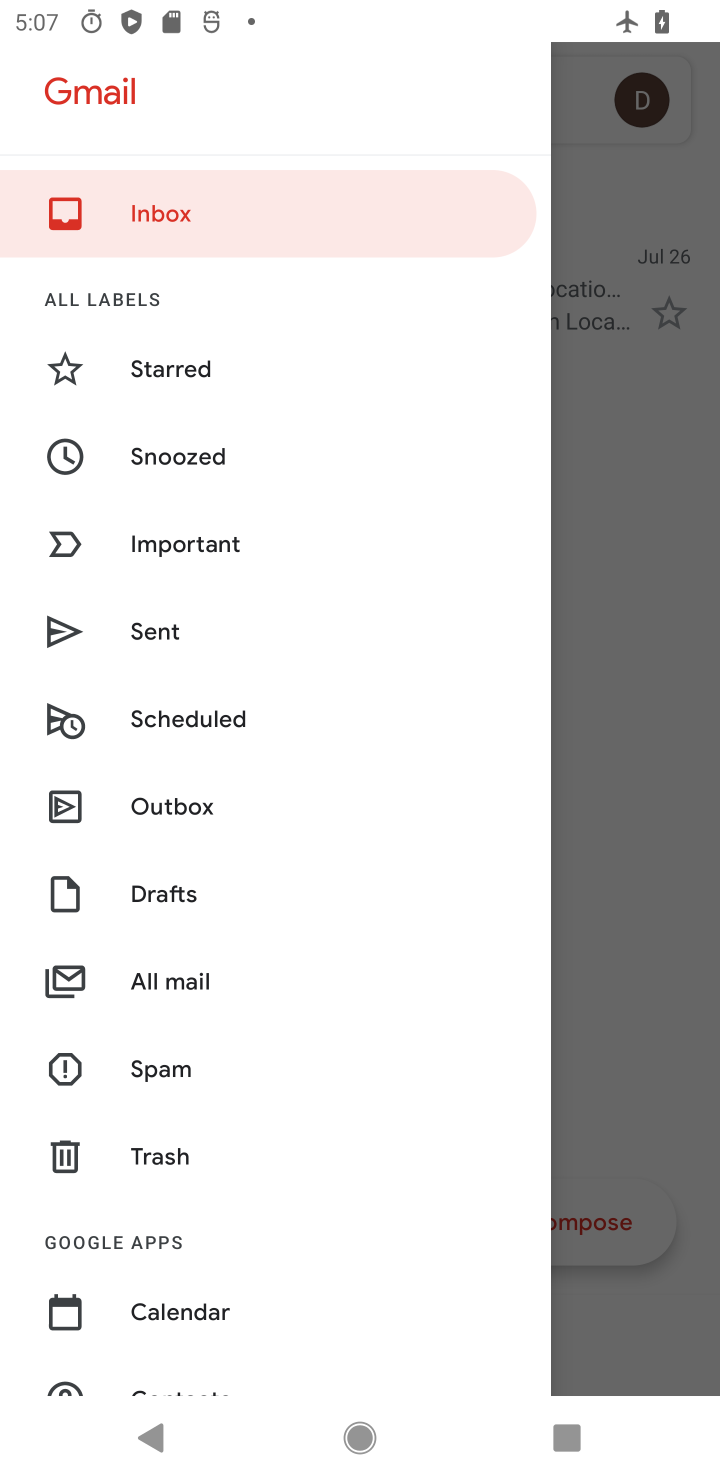
Step 29: drag from (159, 1063) to (188, 314)
Your task to perform on an android device: make emails show in primary in the gmail app Image 30: 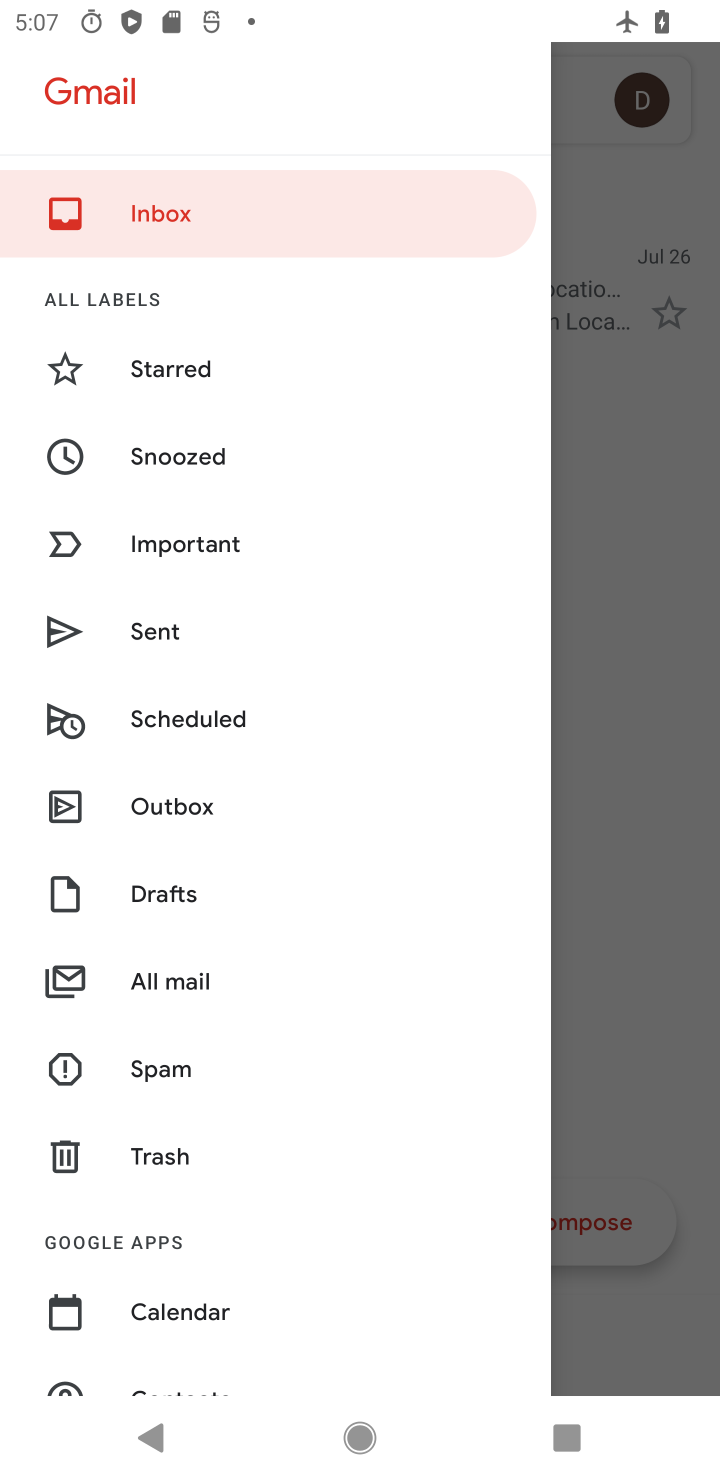
Step 30: drag from (236, 434) to (231, 835)
Your task to perform on an android device: make emails show in primary in the gmail app Image 31: 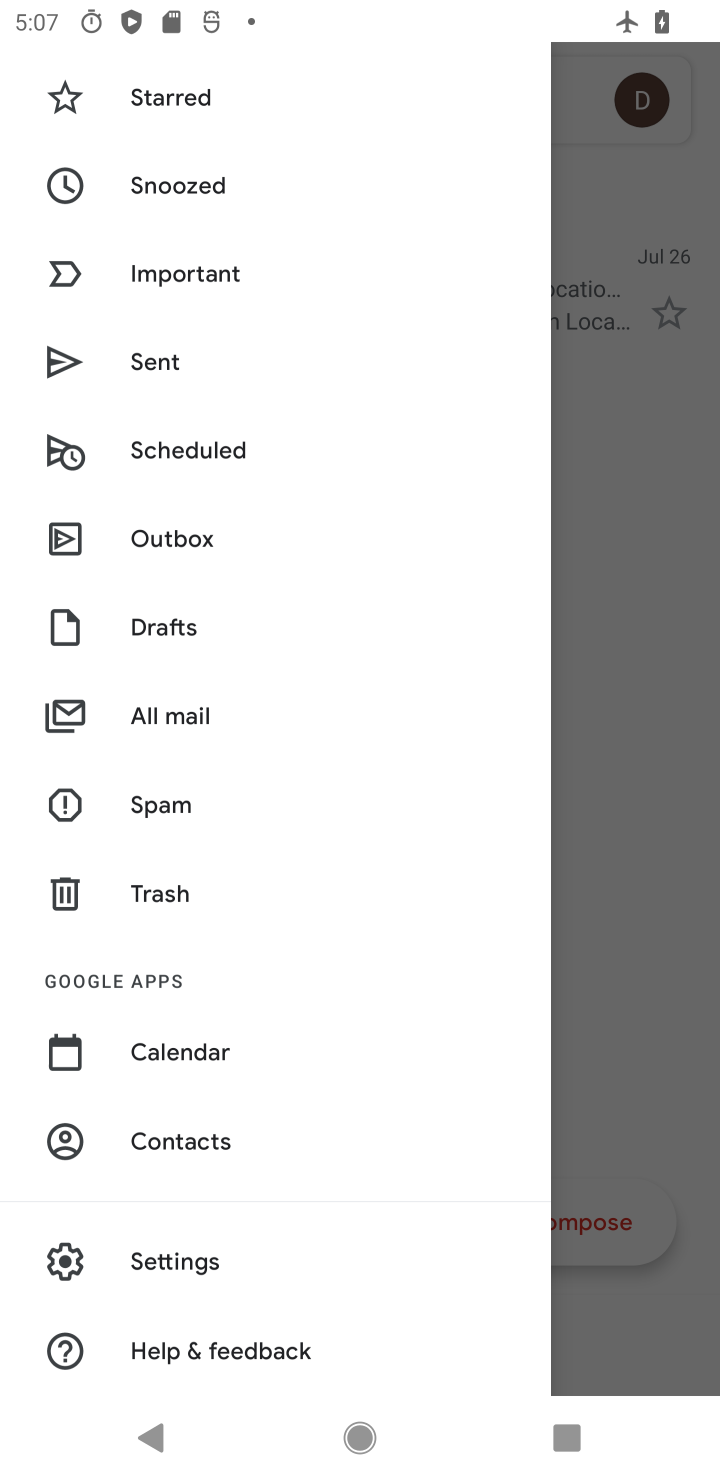
Step 31: click (170, 1255)
Your task to perform on an android device: make emails show in primary in the gmail app Image 32: 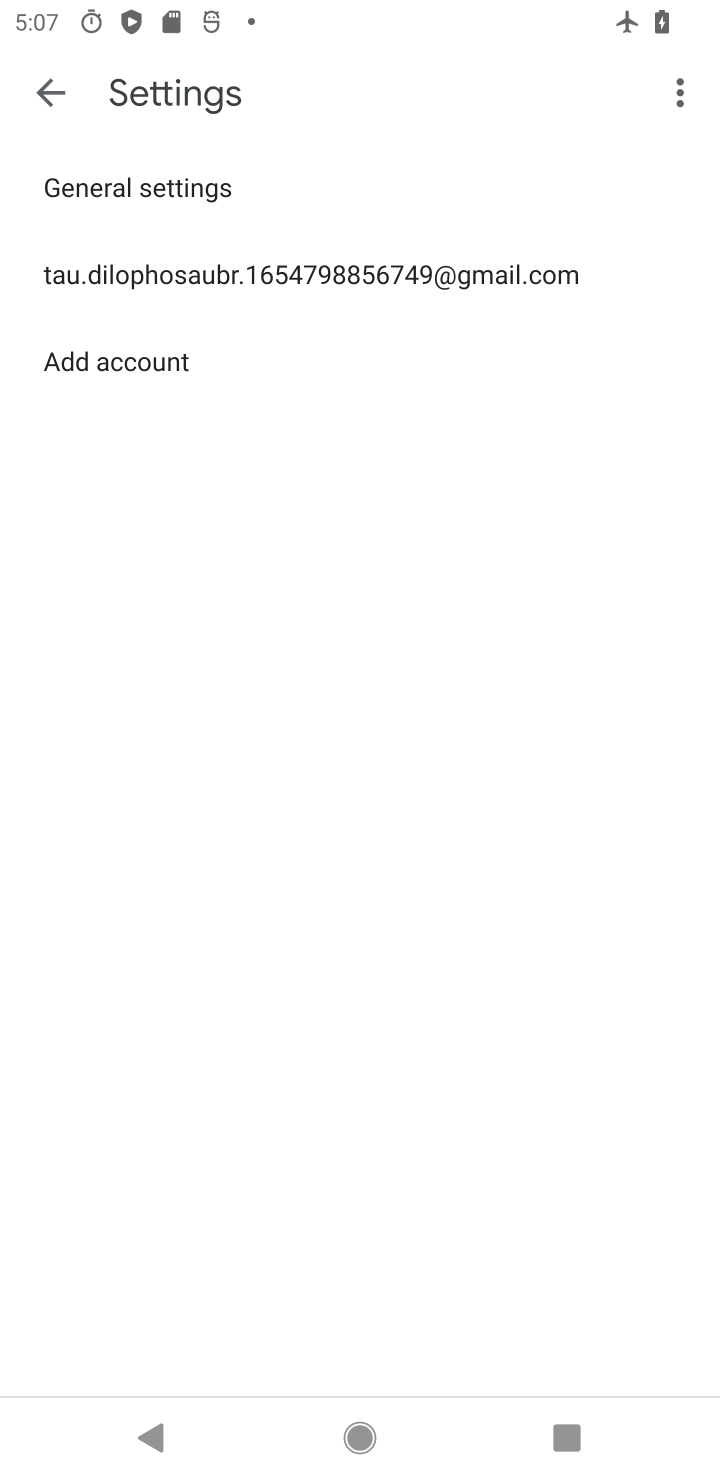
Step 32: click (266, 276)
Your task to perform on an android device: make emails show in primary in the gmail app Image 33: 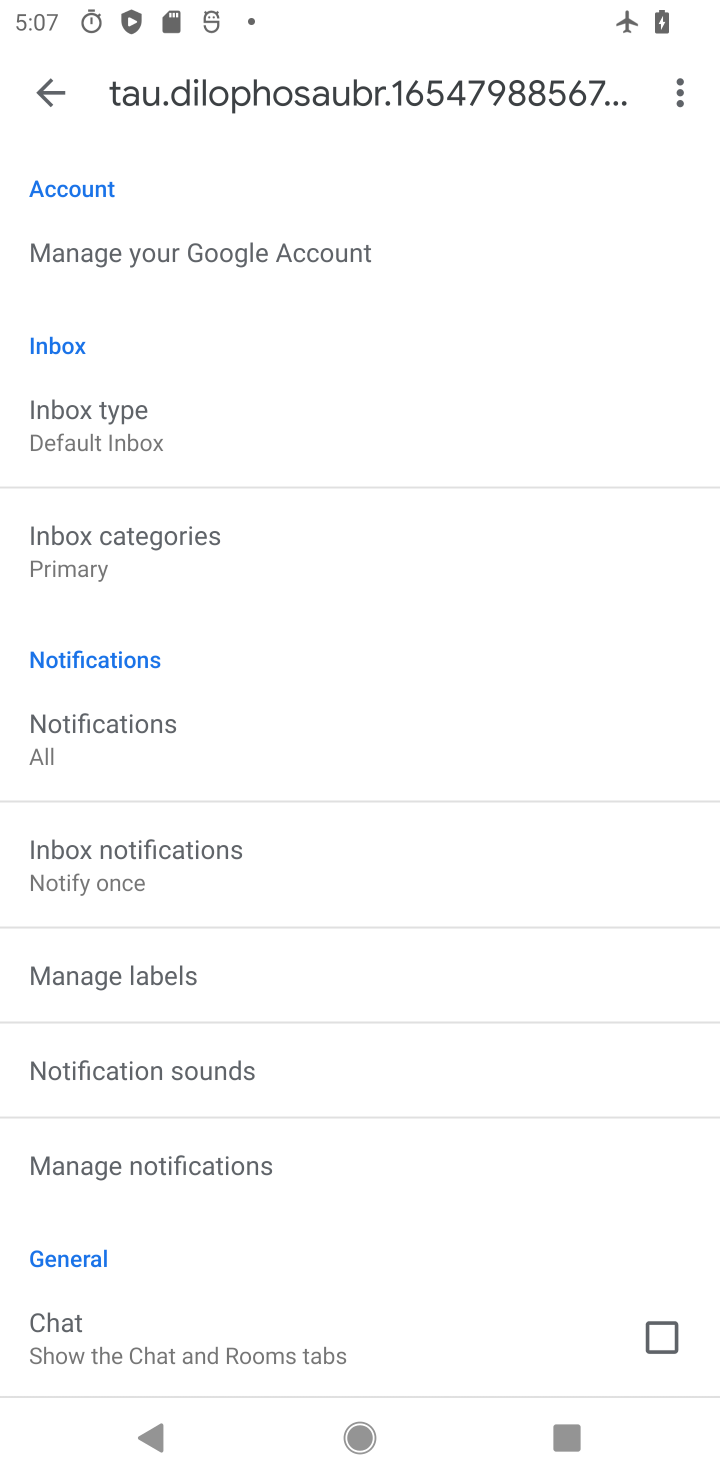
Step 33: click (69, 435)
Your task to perform on an android device: make emails show in primary in the gmail app Image 34: 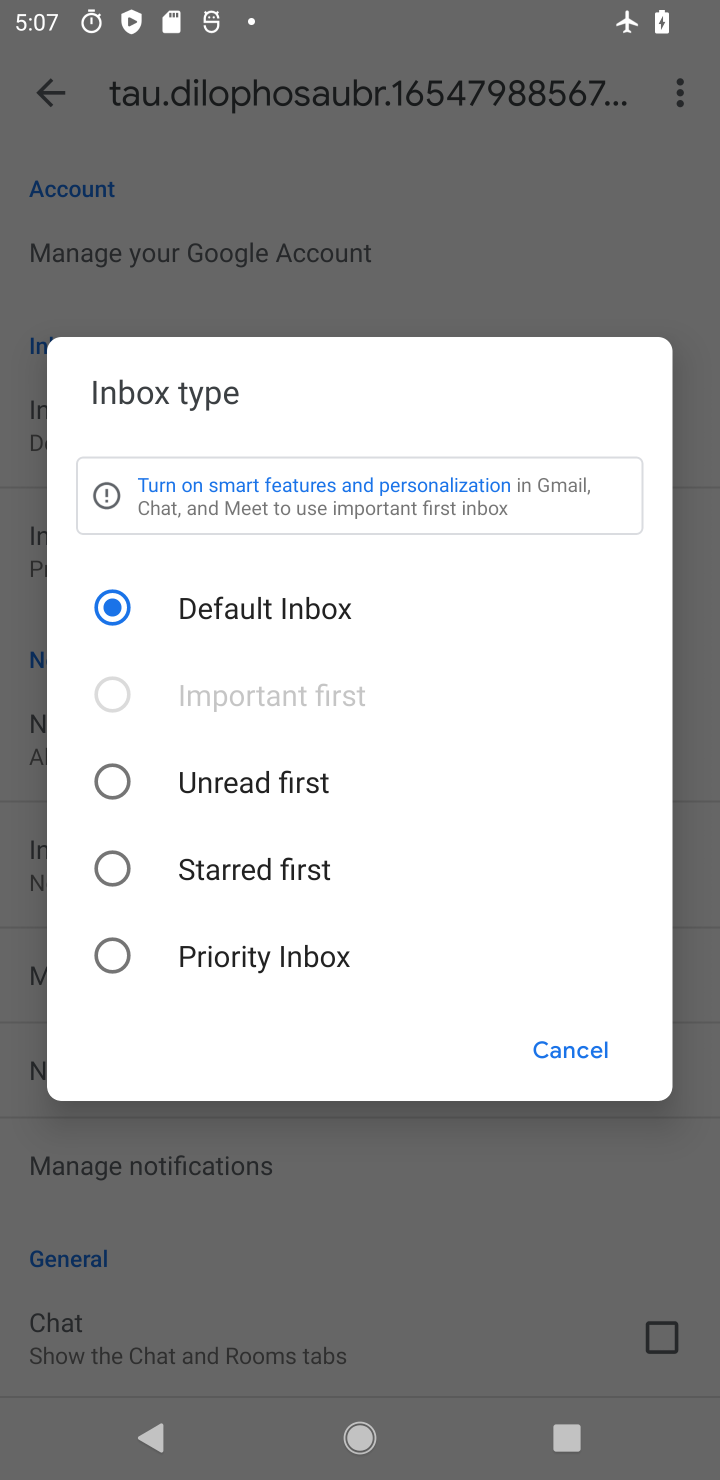
Step 34: click (104, 587)
Your task to perform on an android device: make emails show in primary in the gmail app Image 35: 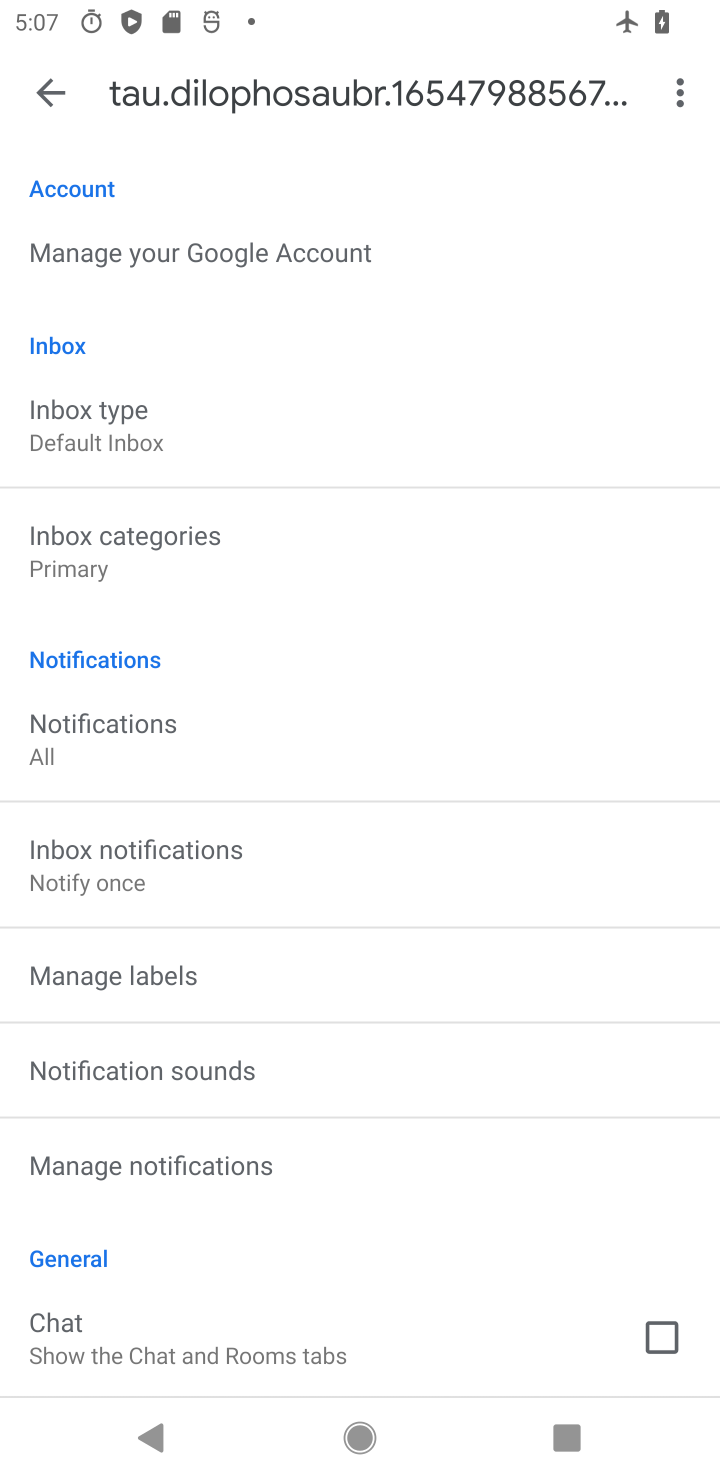
Step 35: task complete